Your task to perform on an android device: open app "WhatsApp Messenger" Image 0: 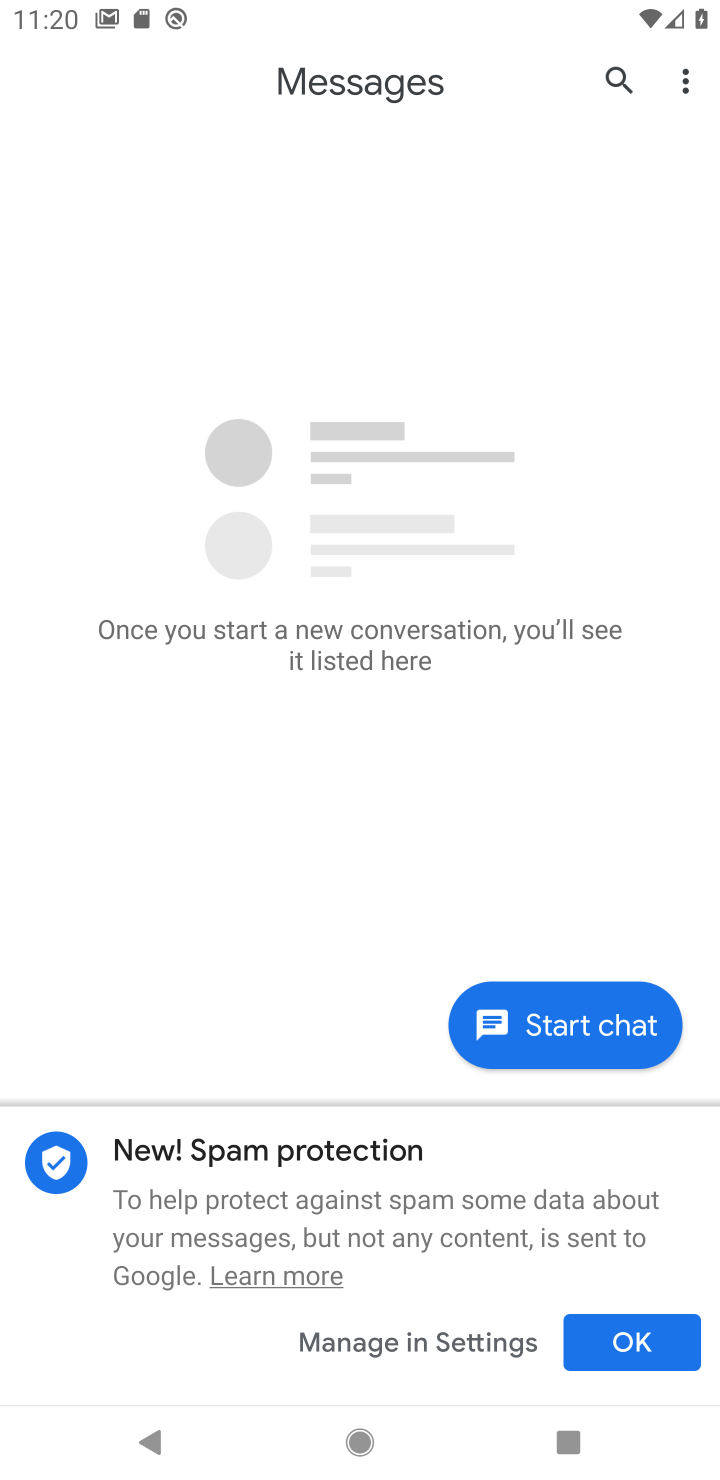
Step 0: press back button
Your task to perform on an android device: open app "WhatsApp Messenger" Image 1: 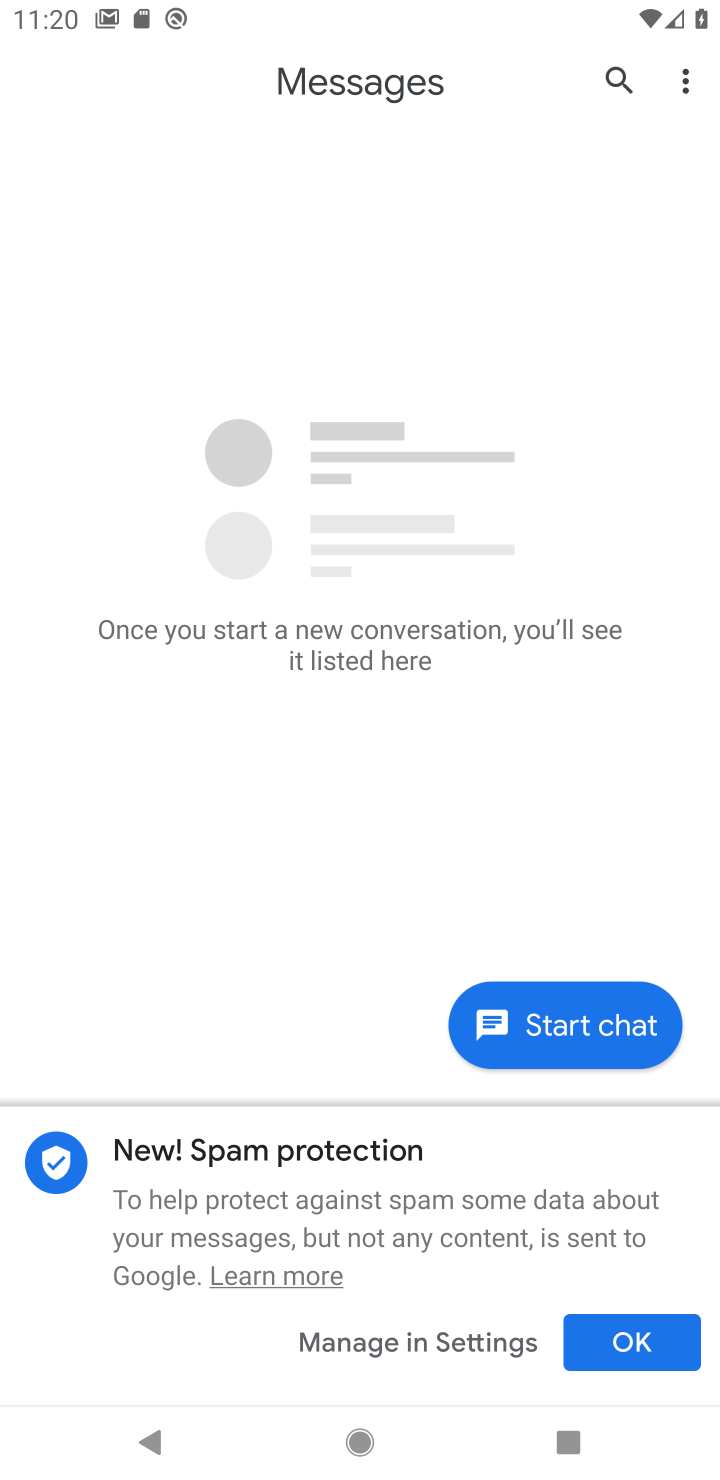
Step 1: press back button
Your task to perform on an android device: open app "WhatsApp Messenger" Image 2: 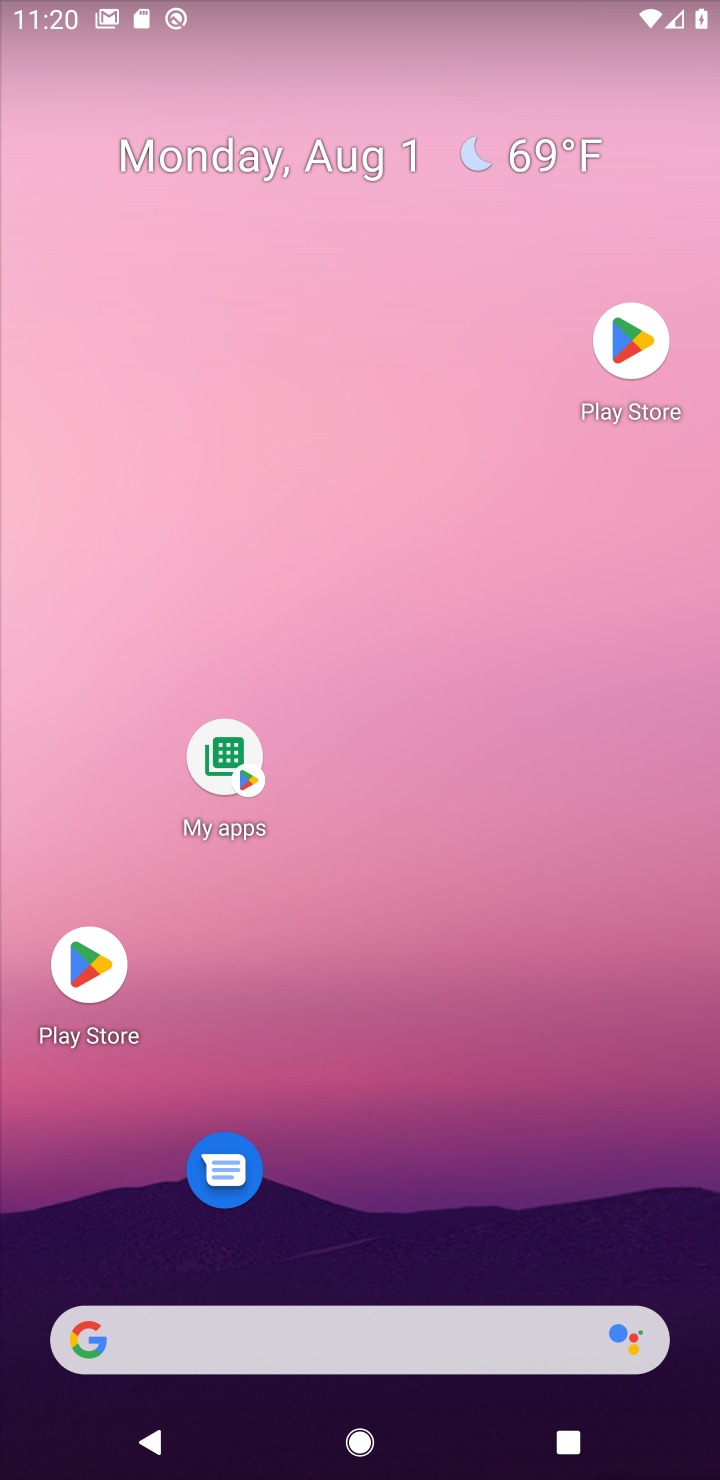
Step 2: click (646, 1325)
Your task to perform on an android device: open app "WhatsApp Messenger" Image 3: 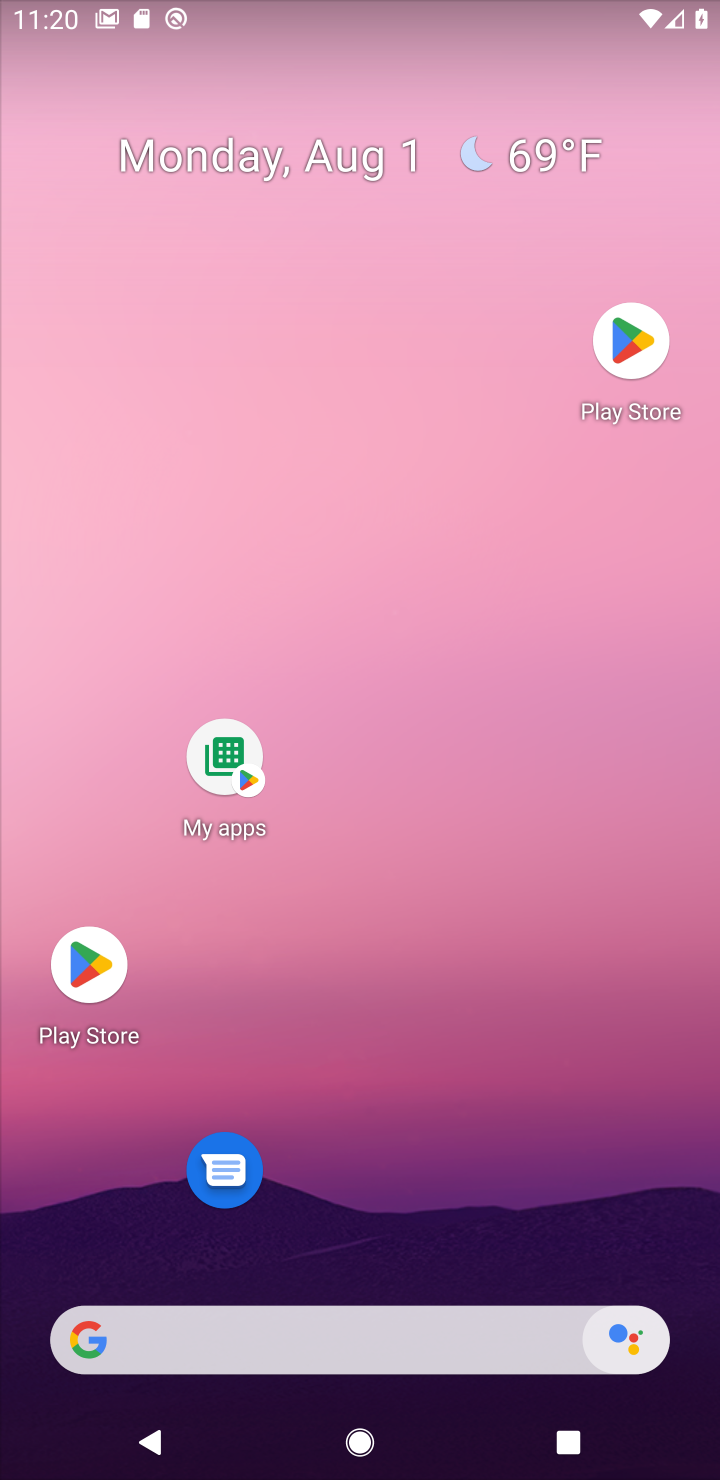
Step 3: click (644, 1325)
Your task to perform on an android device: open app "WhatsApp Messenger" Image 4: 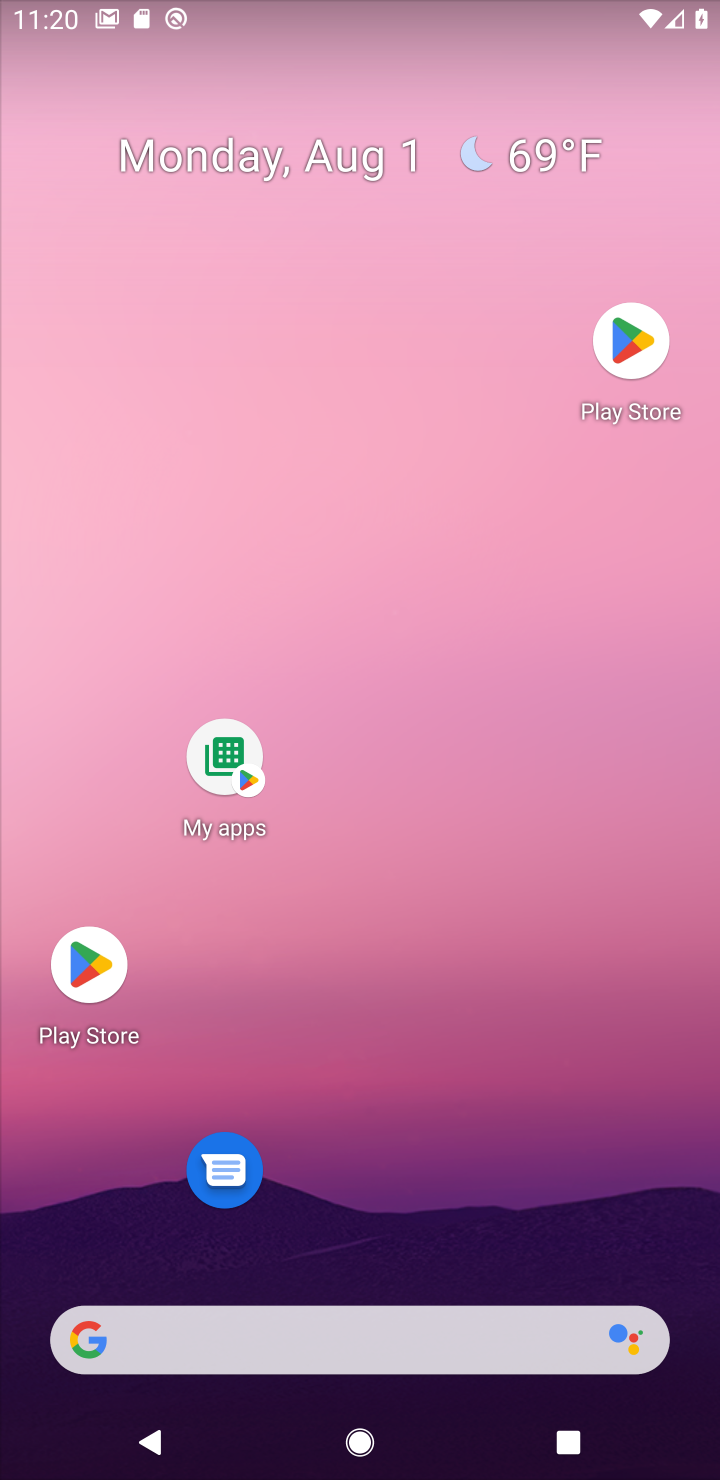
Step 4: drag from (455, 1216) to (362, 287)
Your task to perform on an android device: open app "WhatsApp Messenger" Image 5: 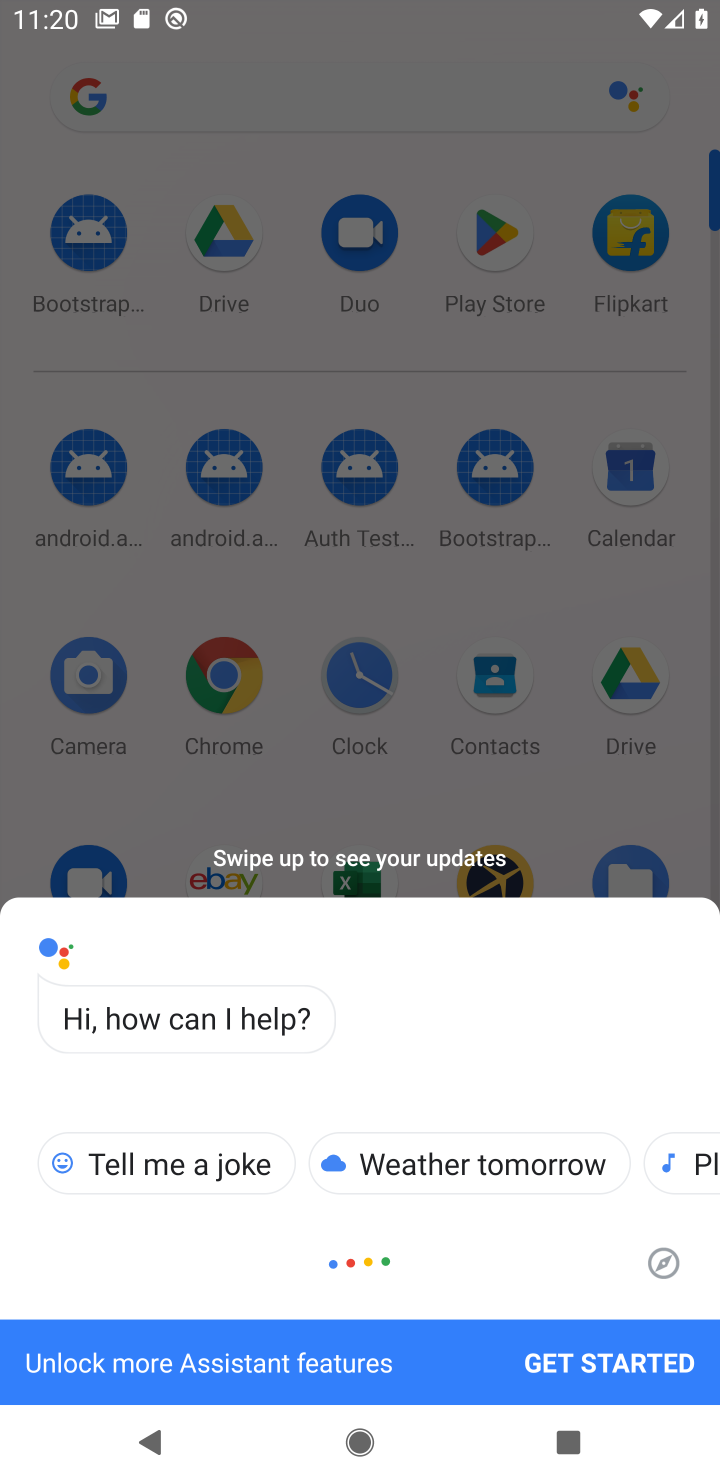
Step 5: drag from (88, 954) to (531, 690)
Your task to perform on an android device: open app "WhatsApp Messenger" Image 6: 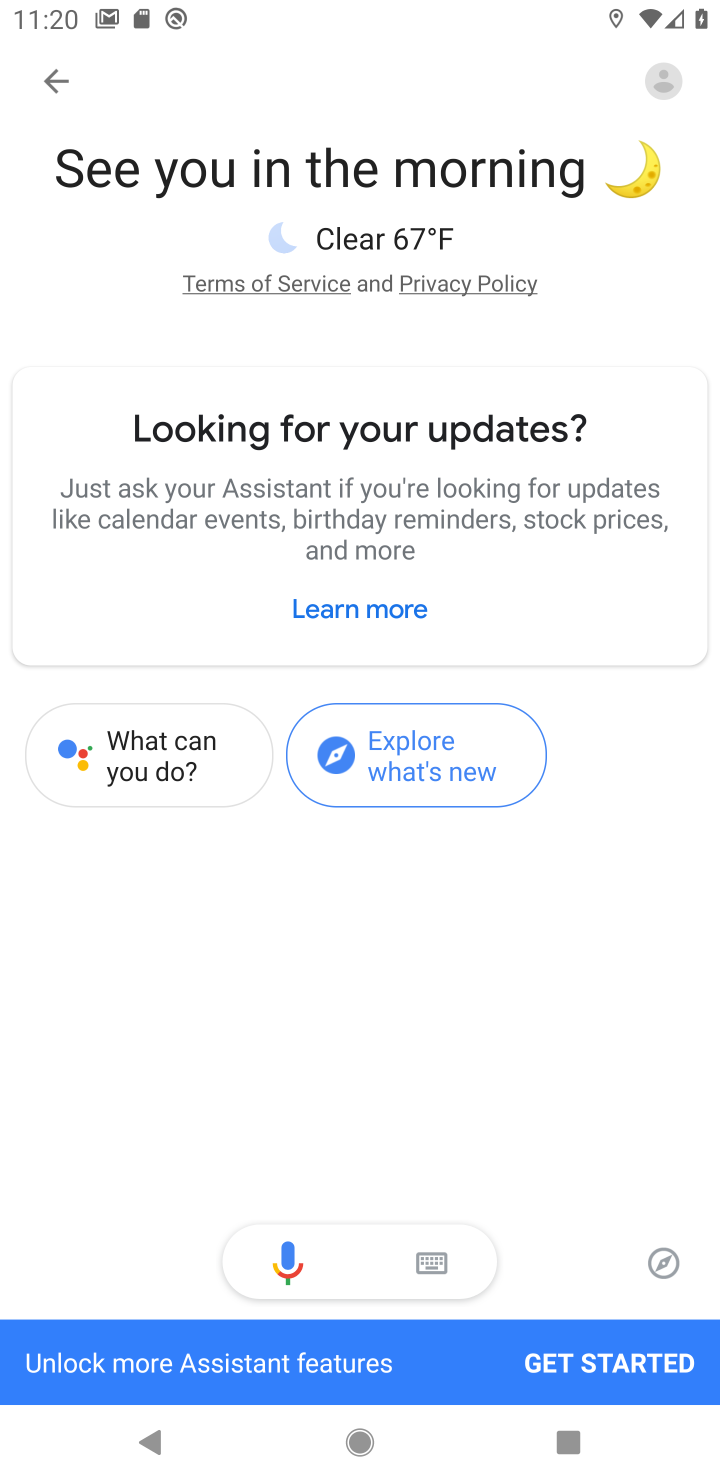
Step 6: click (527, 796)
Your task to perform on an android device: open app "WhatsApp Messenger" Image 7: 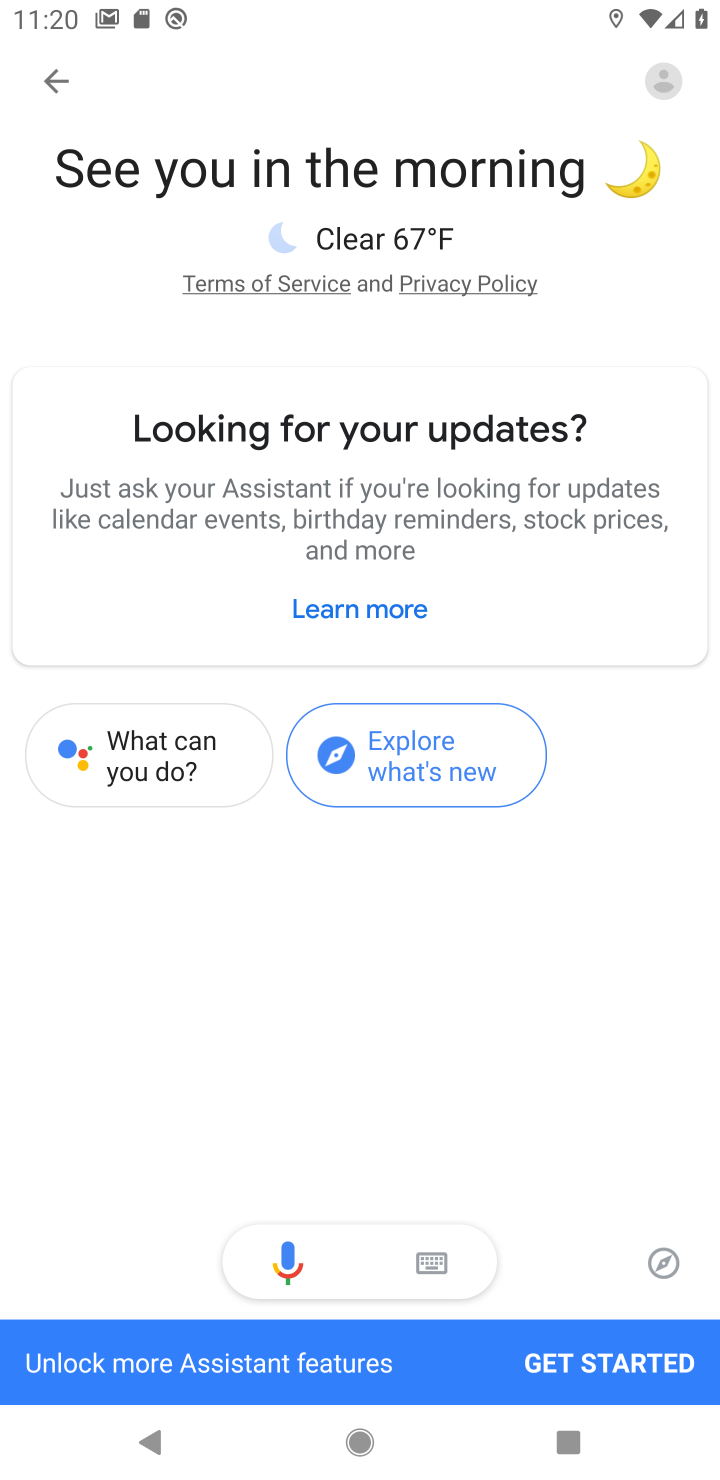
Step 7: press back button
Your task to perform on an android device: open app "WhatsApp Messenger" Image 8: 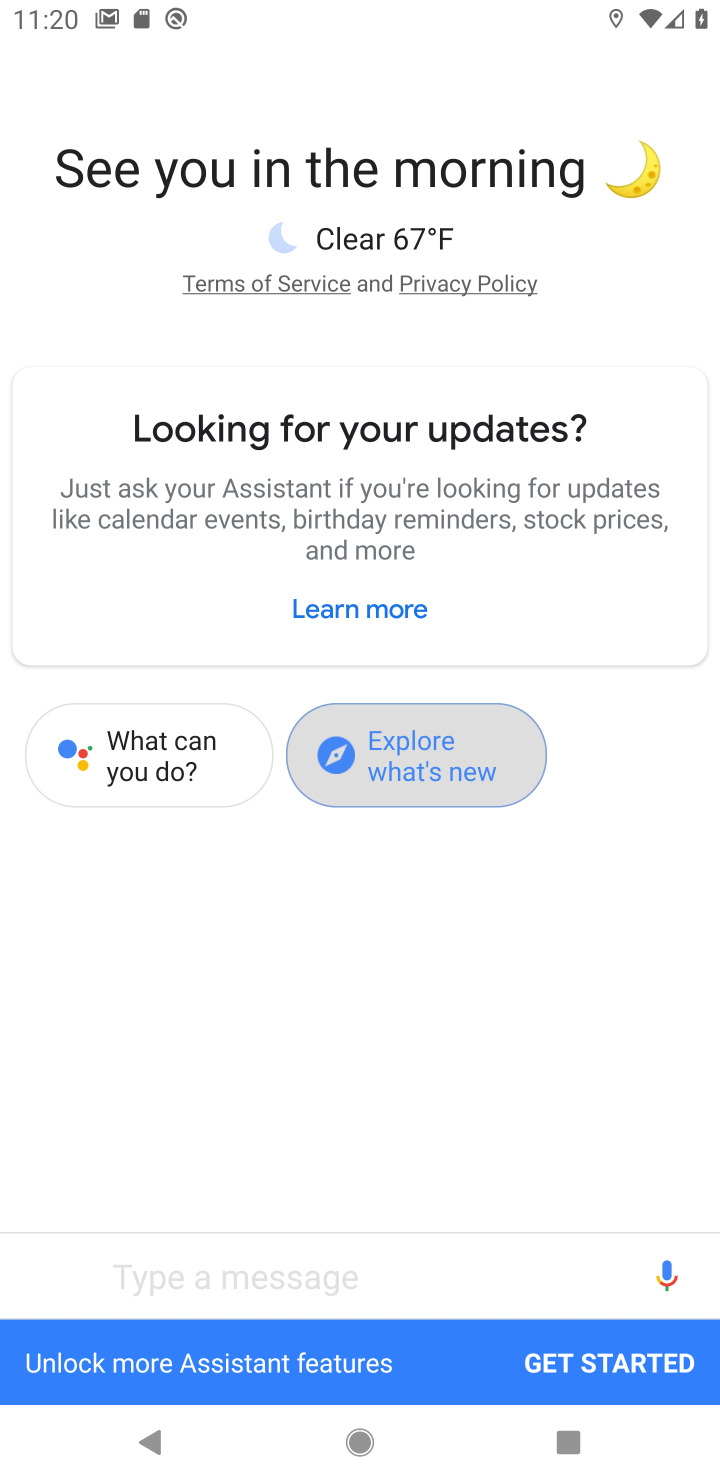
Step 8: press home button
Your task to perform on an android device: open app "WhatsApp Messenger" Image 9: 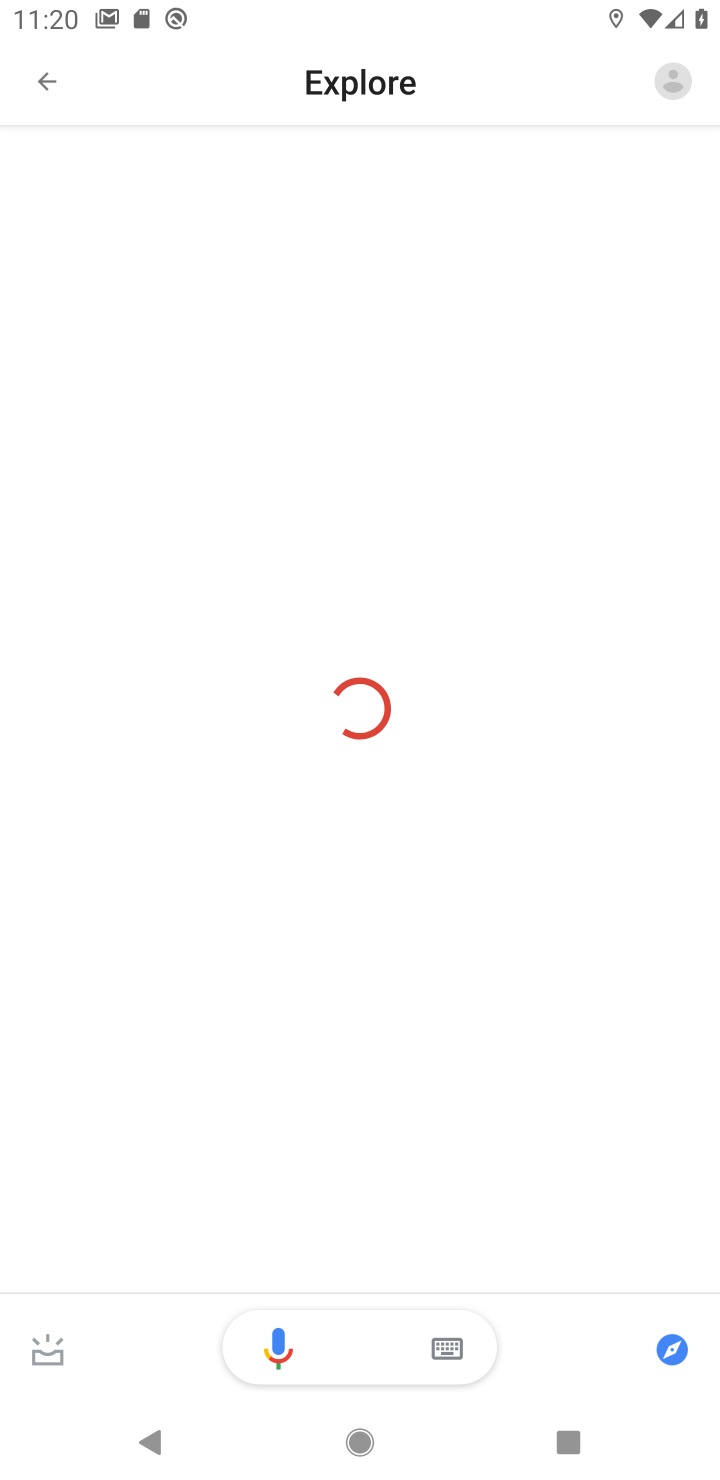
Step 9: click (67, 68)
Your task to perform on an android device: open app "WhatsApp Messenger" Image 10: 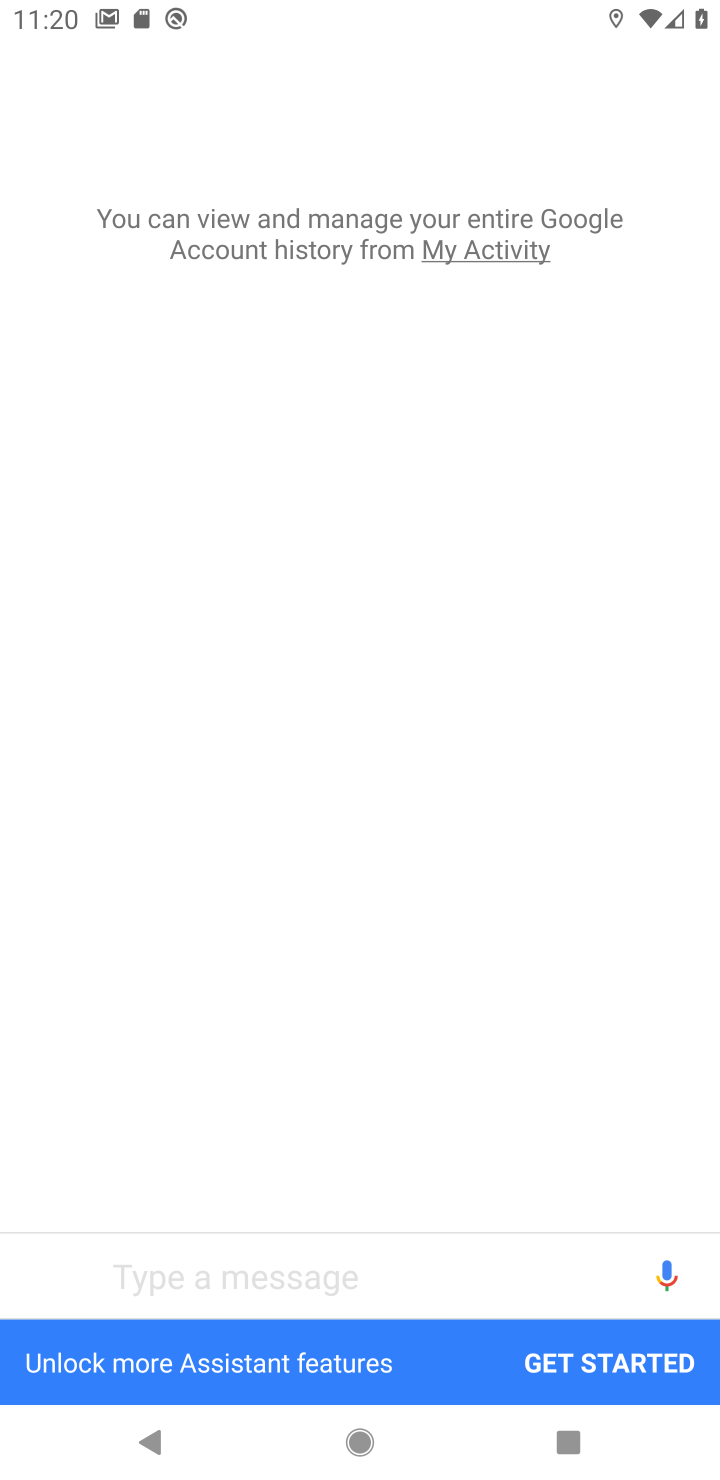
Step 10: press back button
Your task to perform on an android device: open app "WhatsApp Messenger" Image 11: 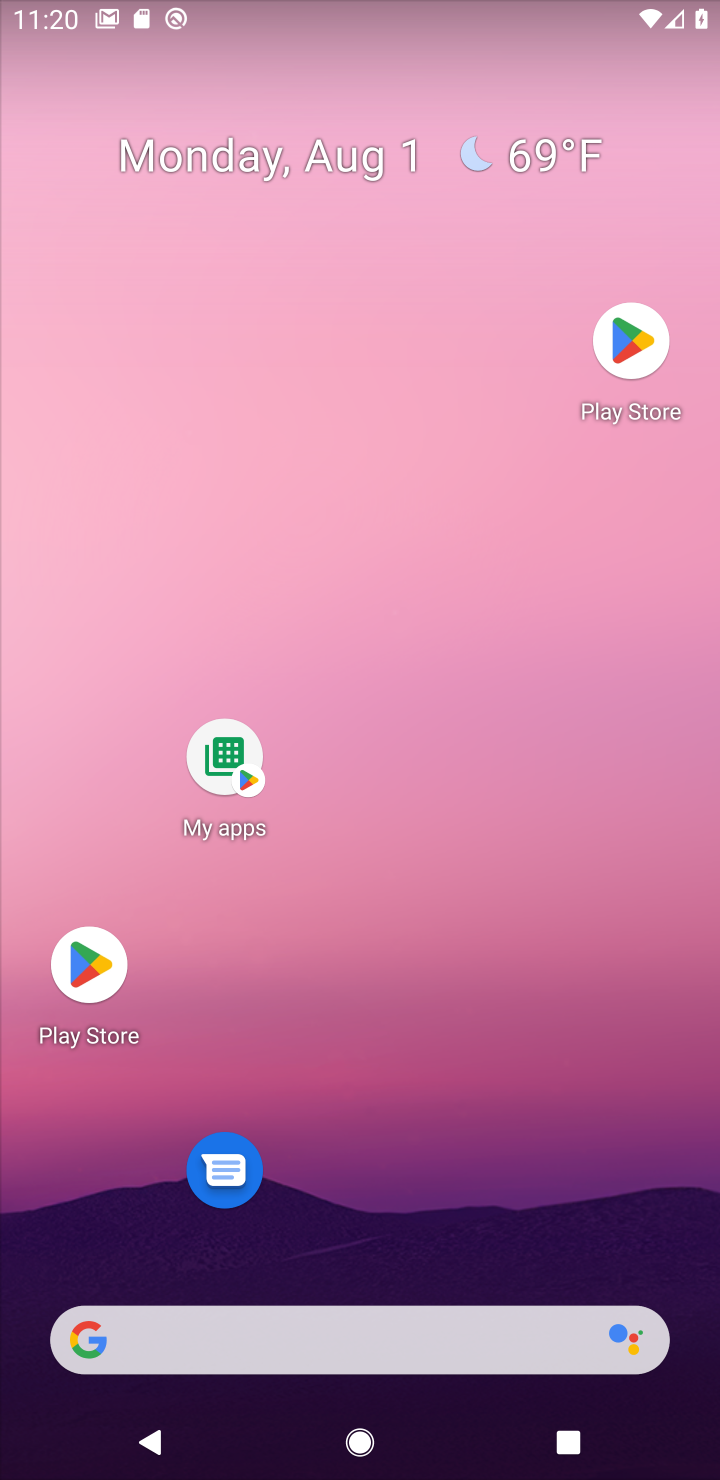
Step 11: press back button
Your task to perform on an android device: open app "WhatsApp Messenger" Image 12: 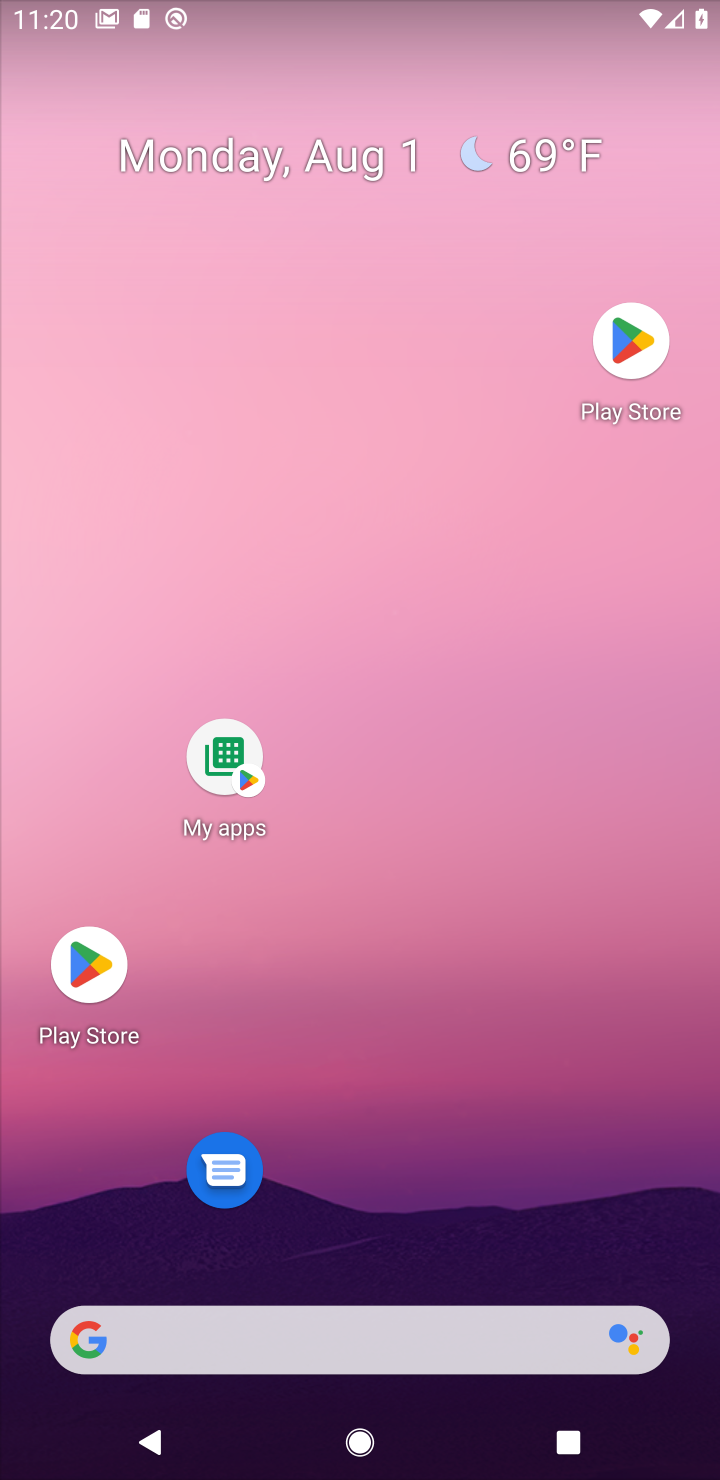
Step 12: press home button
Your task to perform on an android device: open app "WhatsApp Messenger" Image 13: 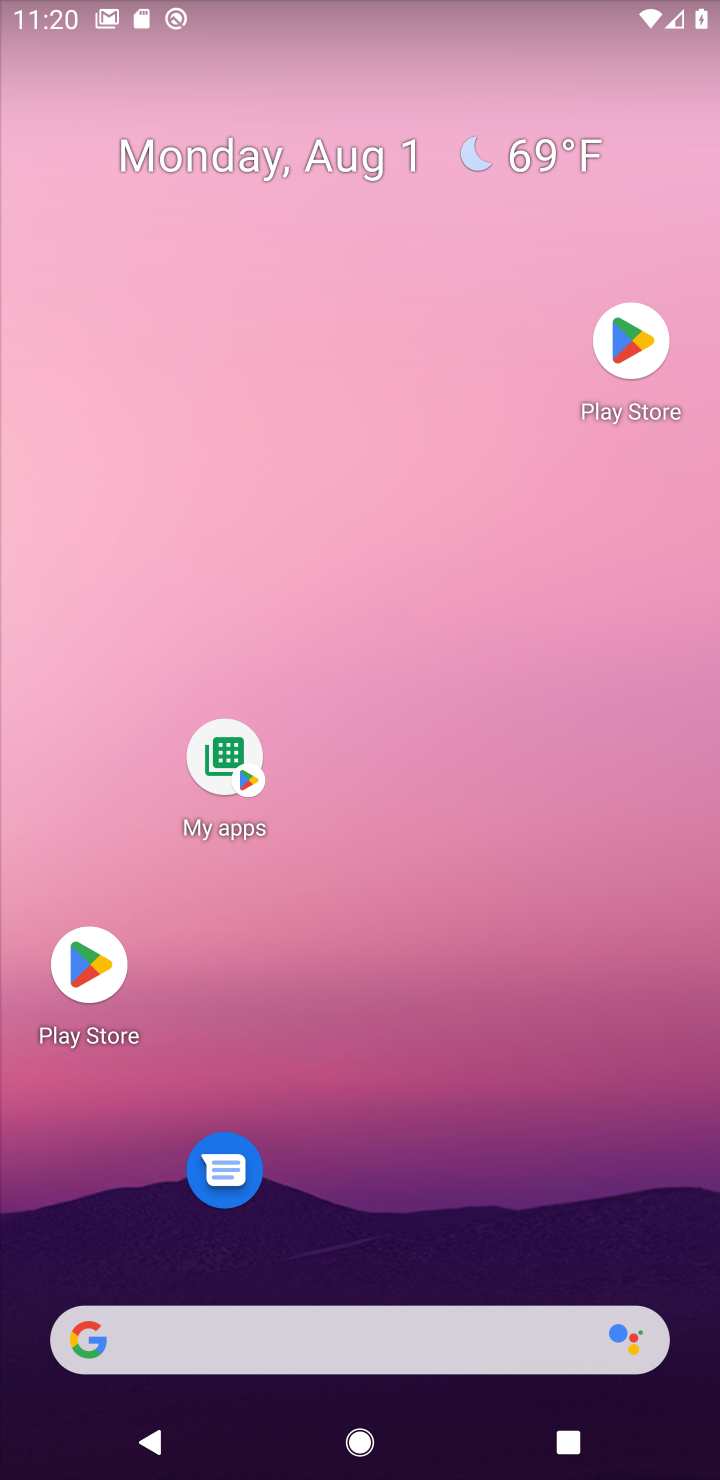
Step 13: click (631, 320)
Your task to perform on an android device: open app "WhatsApp Messenger" Image 14: 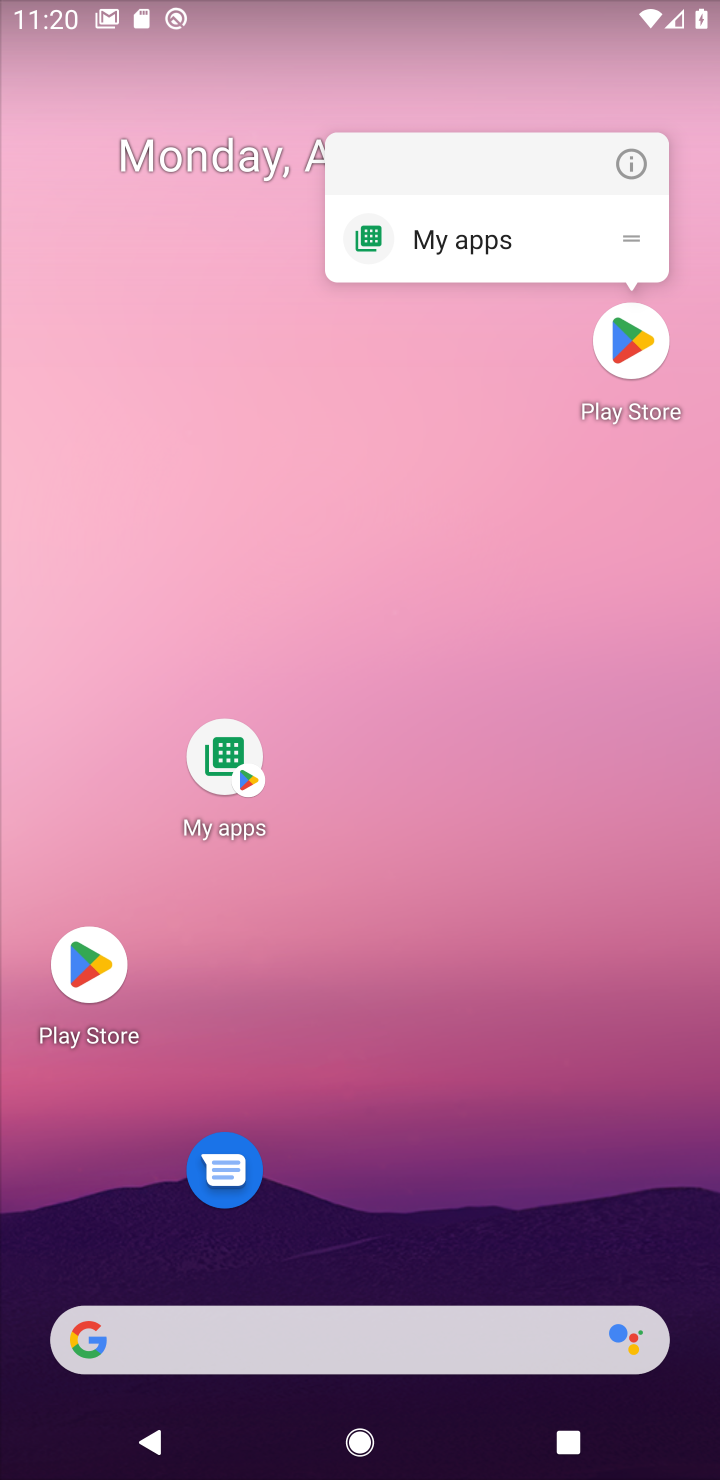
Step 14: click (655, 327)
Your task to perform on an android device: open app "WhatsApp Messenger" Image 15: 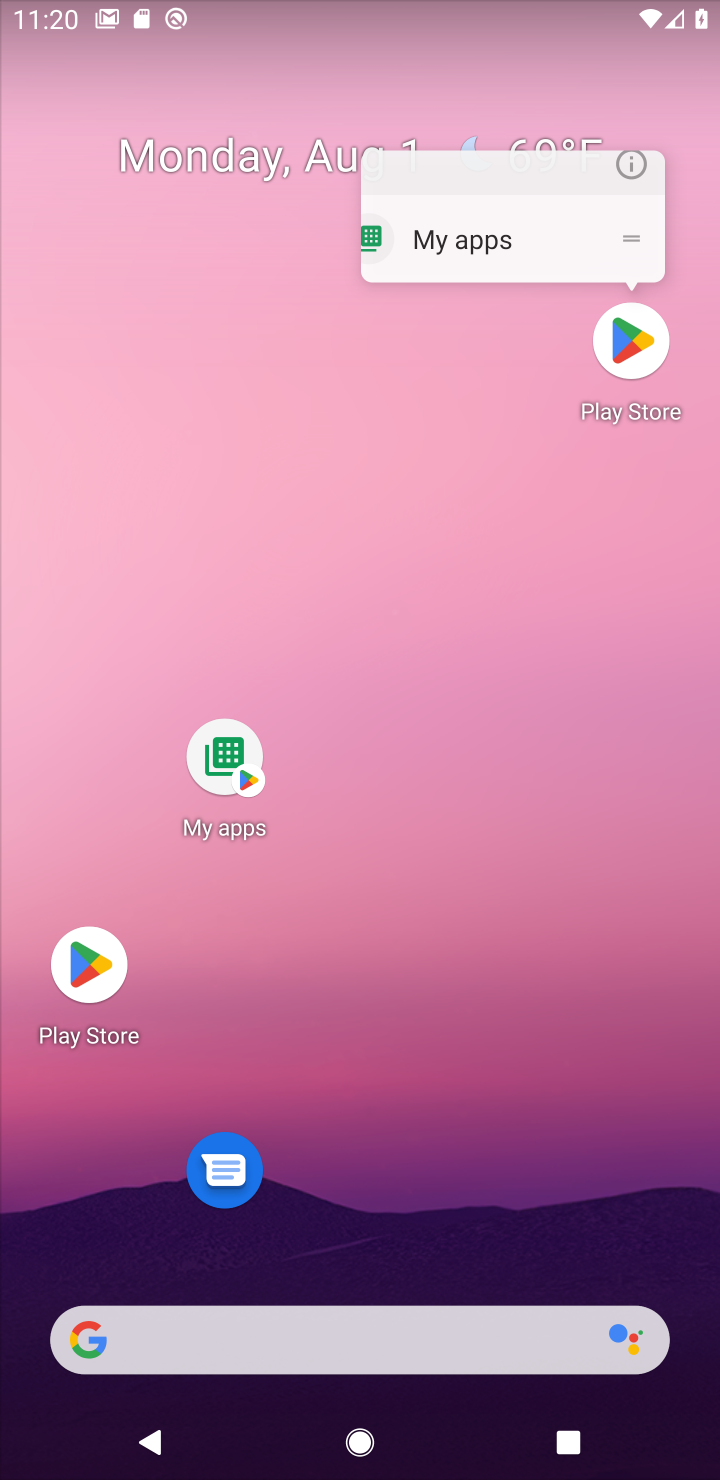
Step 15: click (657, 331)
Your task to perform on an android device: open app "WhatsApp Messenger" Image 16: 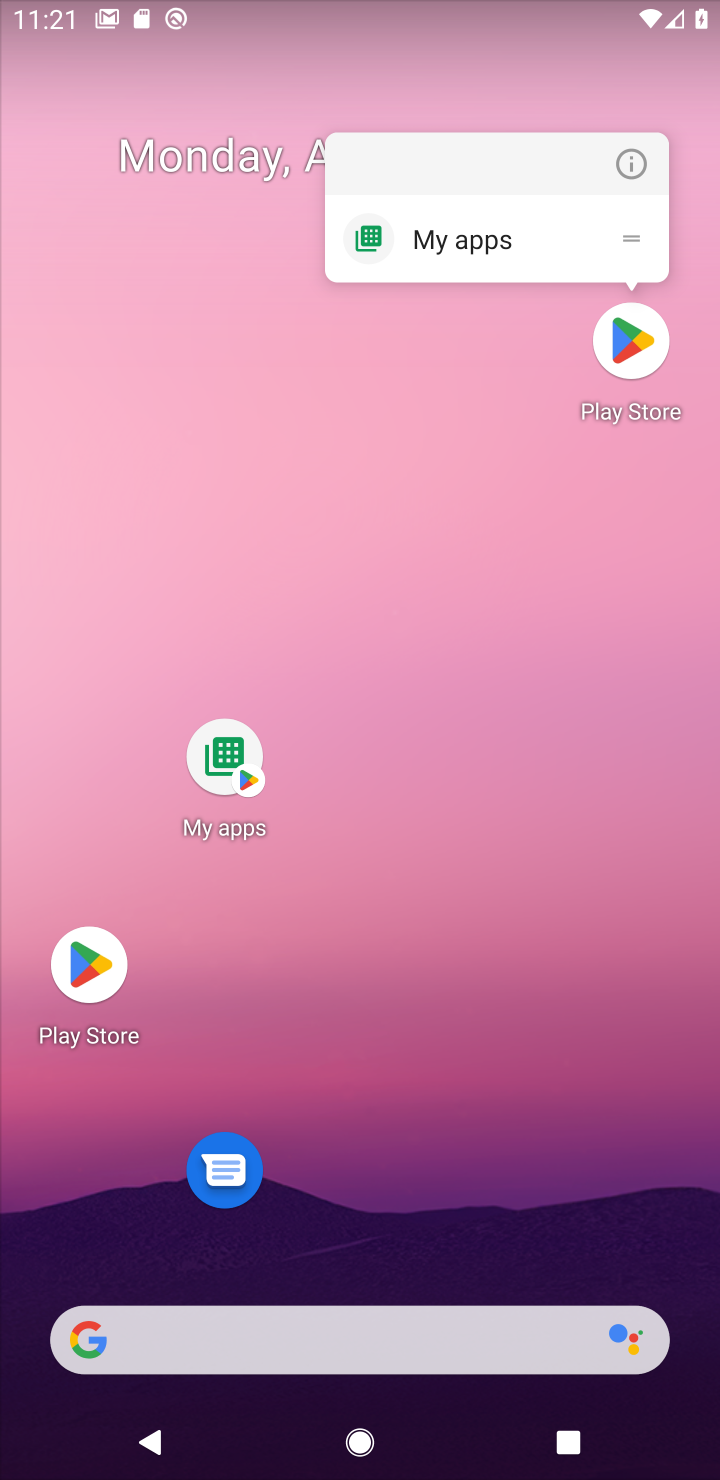
Step 16: click (623, 311)
Your task to perform on an android device: open app "WhatsApp Messenger" Image 17: 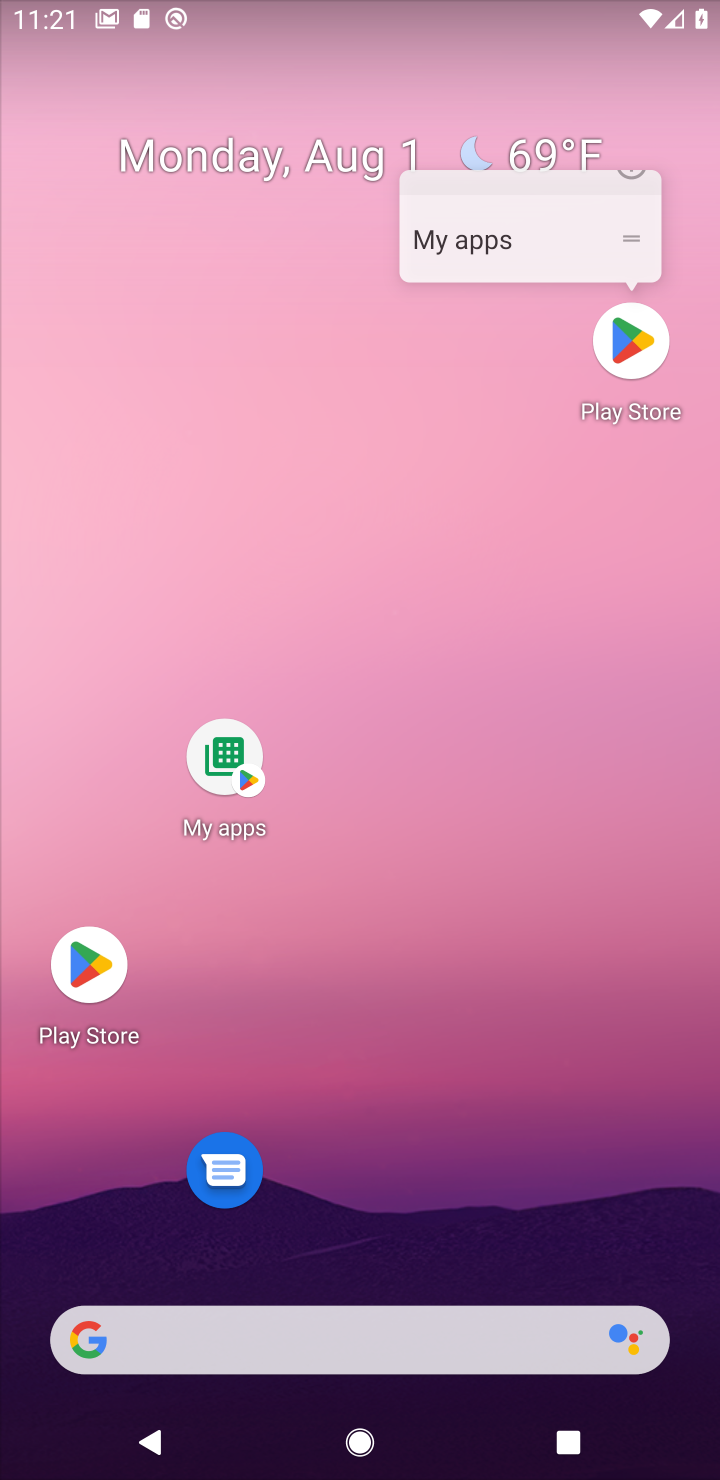
Step 17: click (627, 337)
Your task to perform on an android device: open app "WhatsApp Messenger" Image 18: 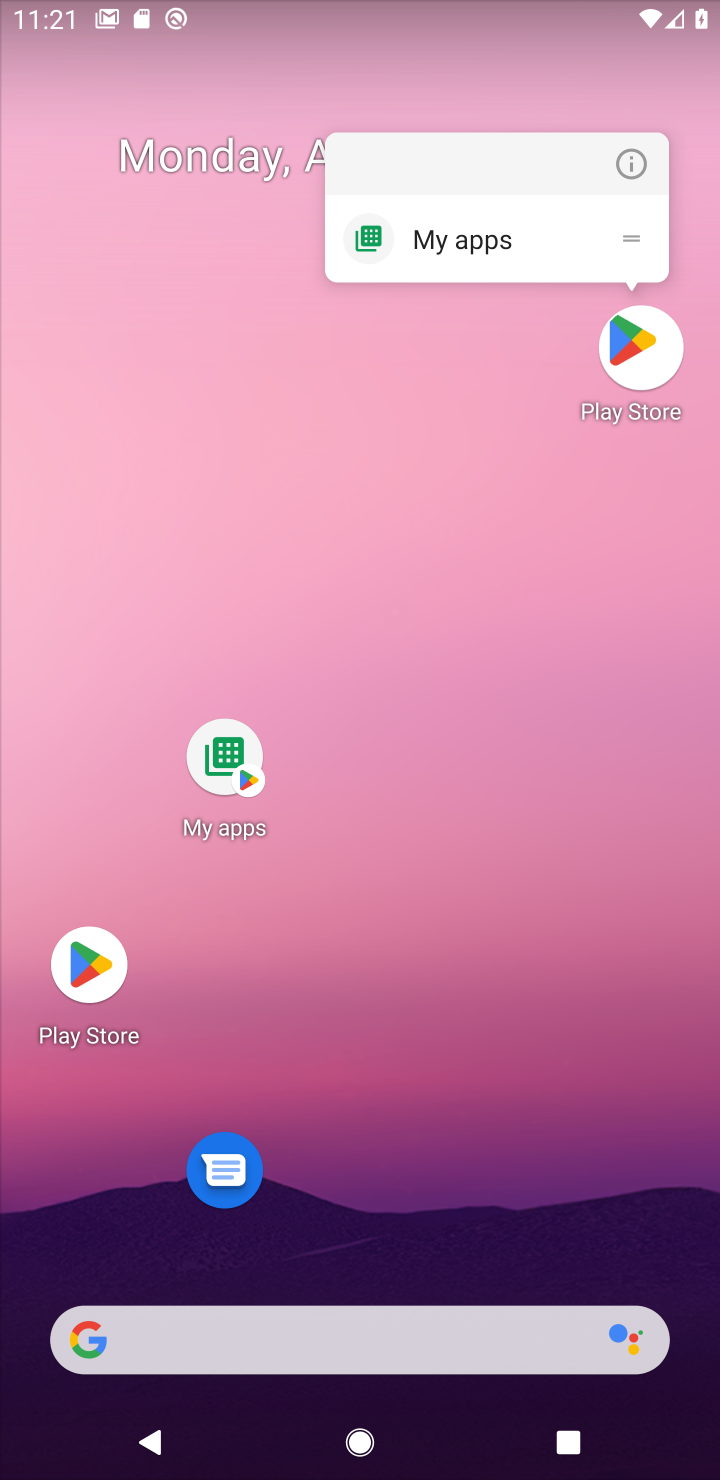
Step 18: click (637, 344)
Your task to perform on an android device: open app "WhatsApp Messenger" Image 19: 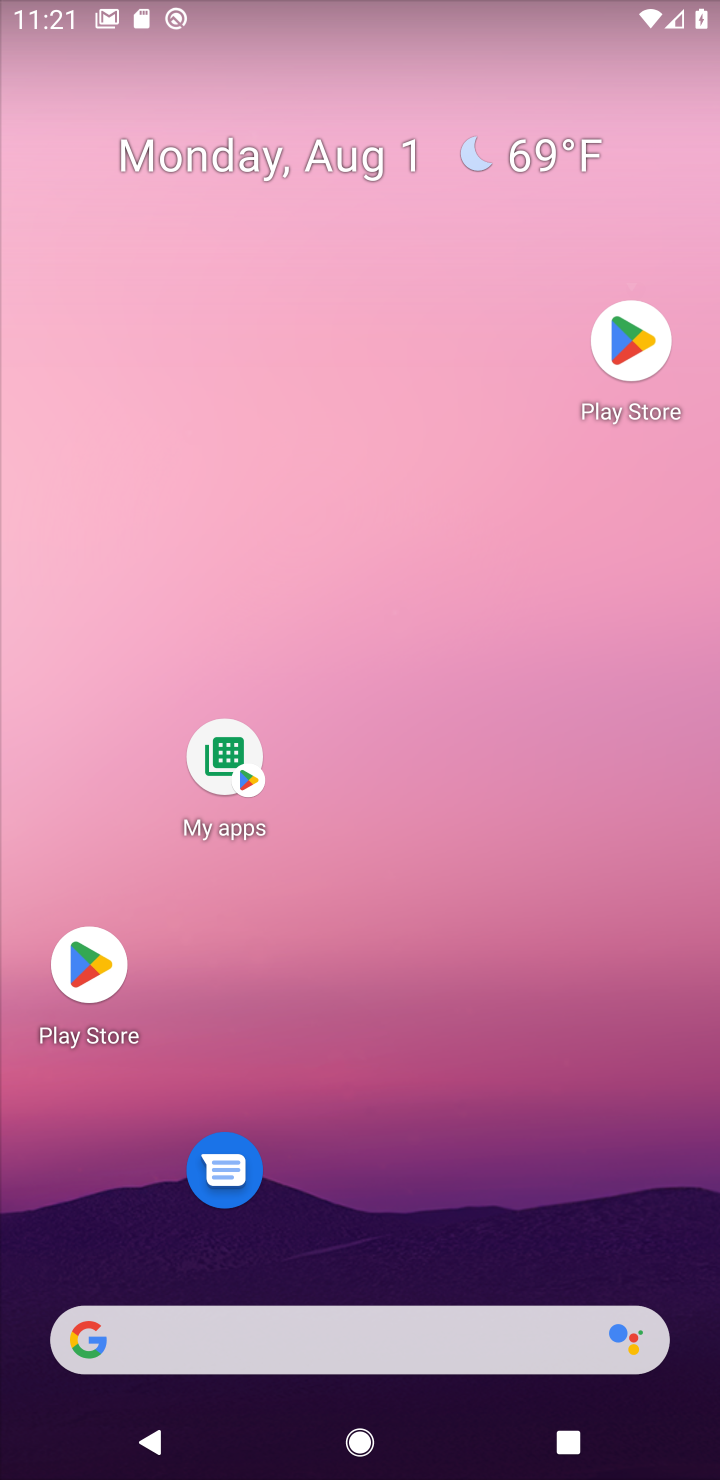
Step 19: click (643, 374)
Your task to perform on an android device: open app "WhatsApp Messenger" Image 20: 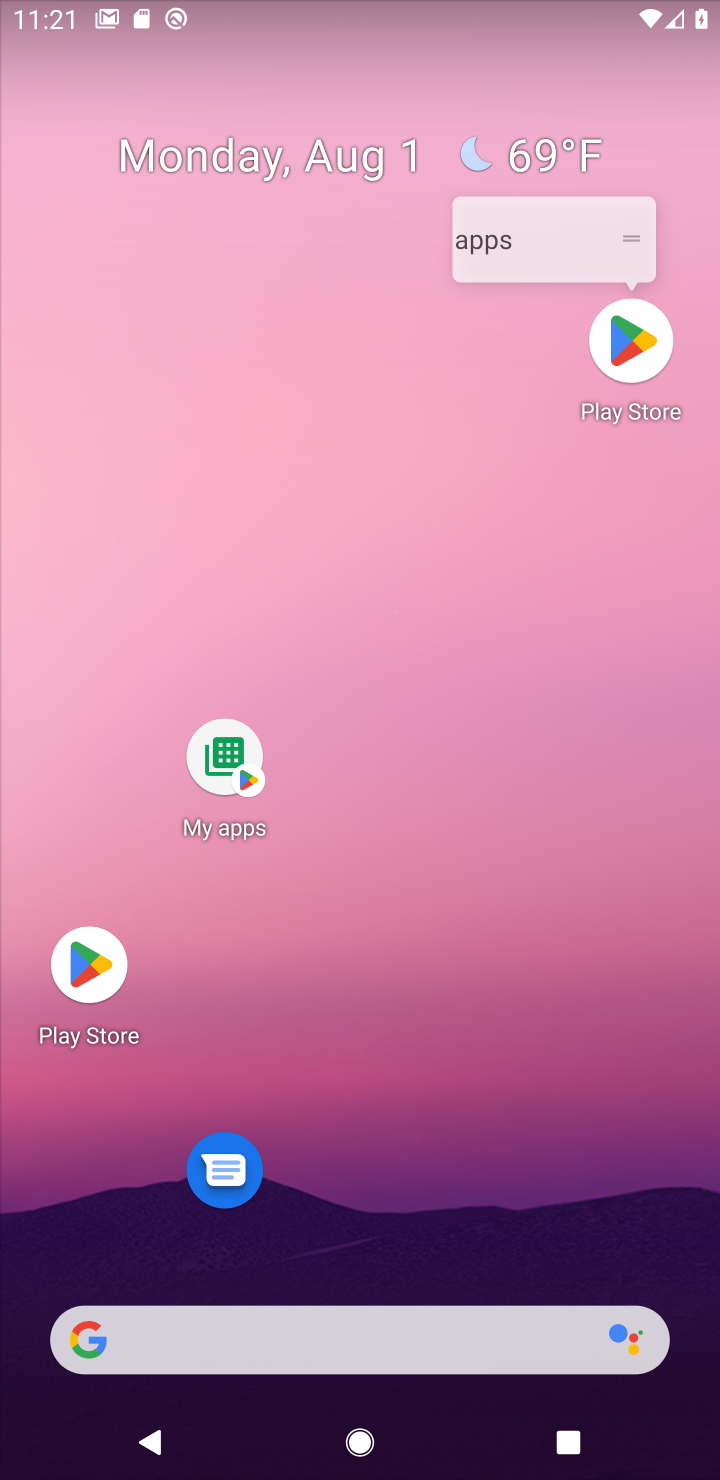
Step 20: click (450, 225)
Your task to perform on an android device: open app "WhatsApp Messenger" Image 21: 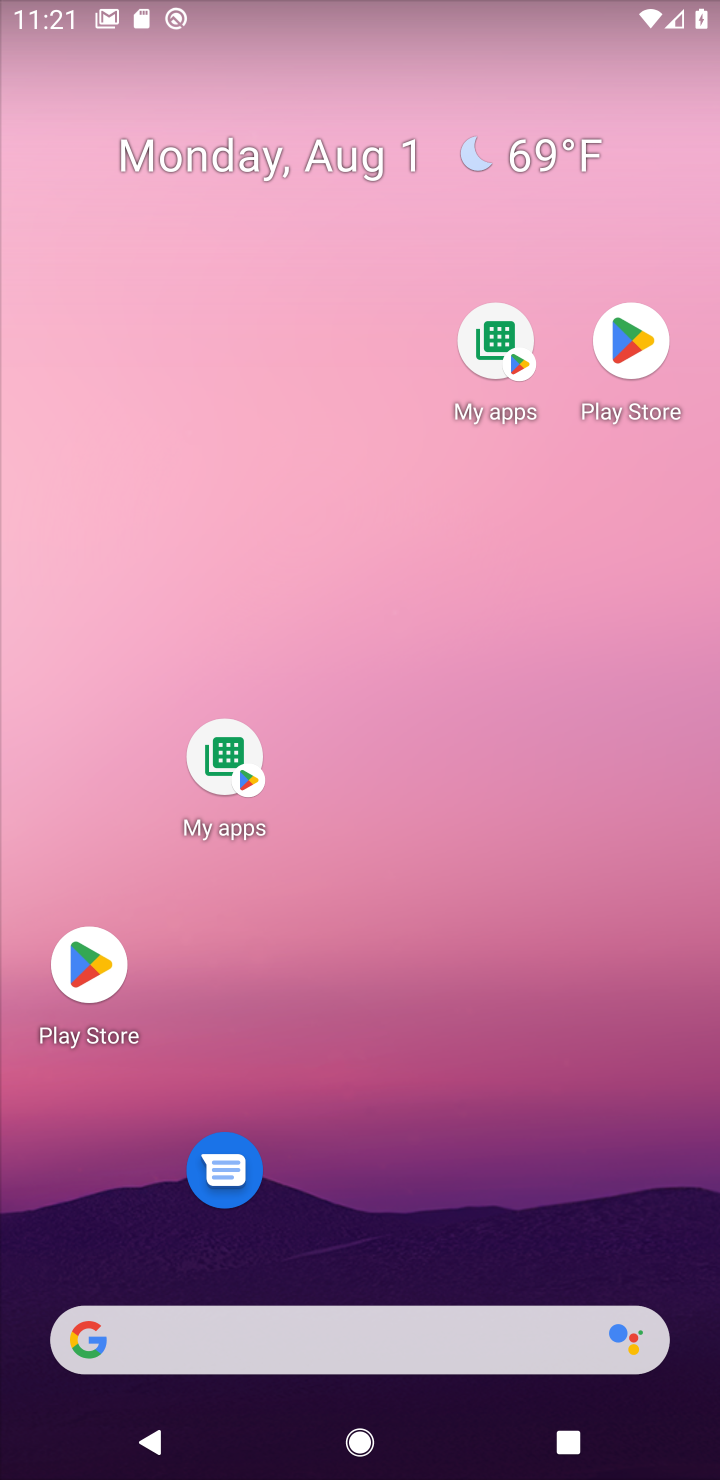
Step 21: click (637, 330)
Your task to perform on an android device: open app "WhatsApp Messenger" Image 22: 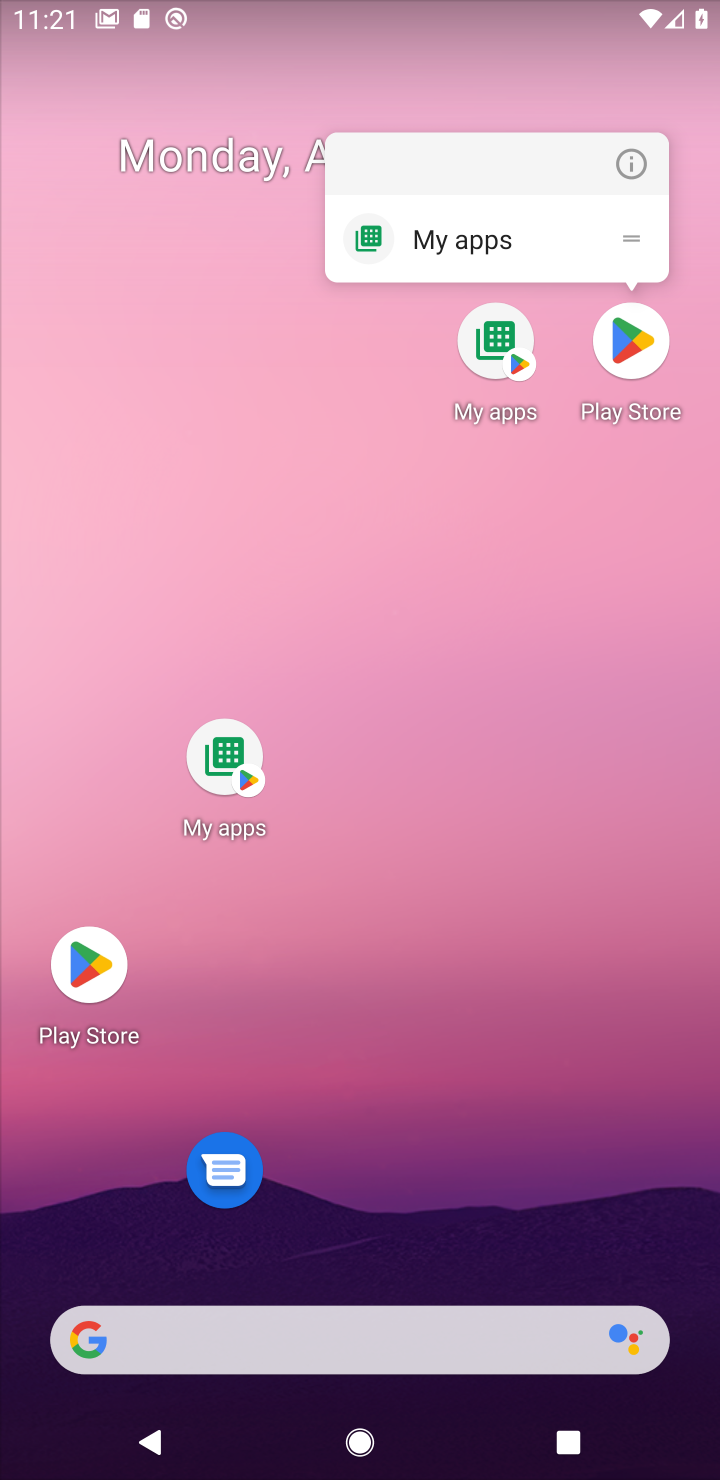
Step 22: click (466, 241)
Your task to perform on an android device: open app "WhatsApp Messenger" Image 23: 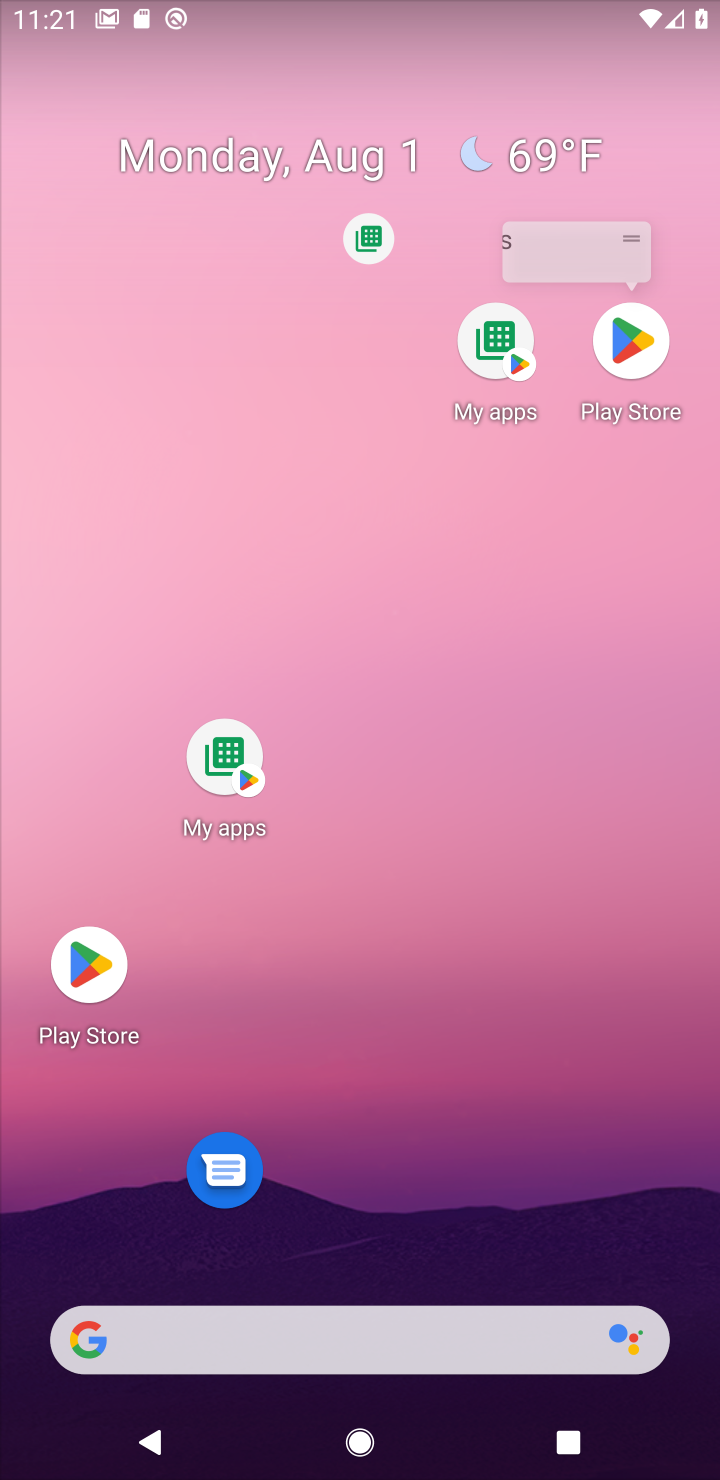
Step 23: click (468, 243)
Your task to perform on an android device: open app "WhatsApp Messenger" Image 24: 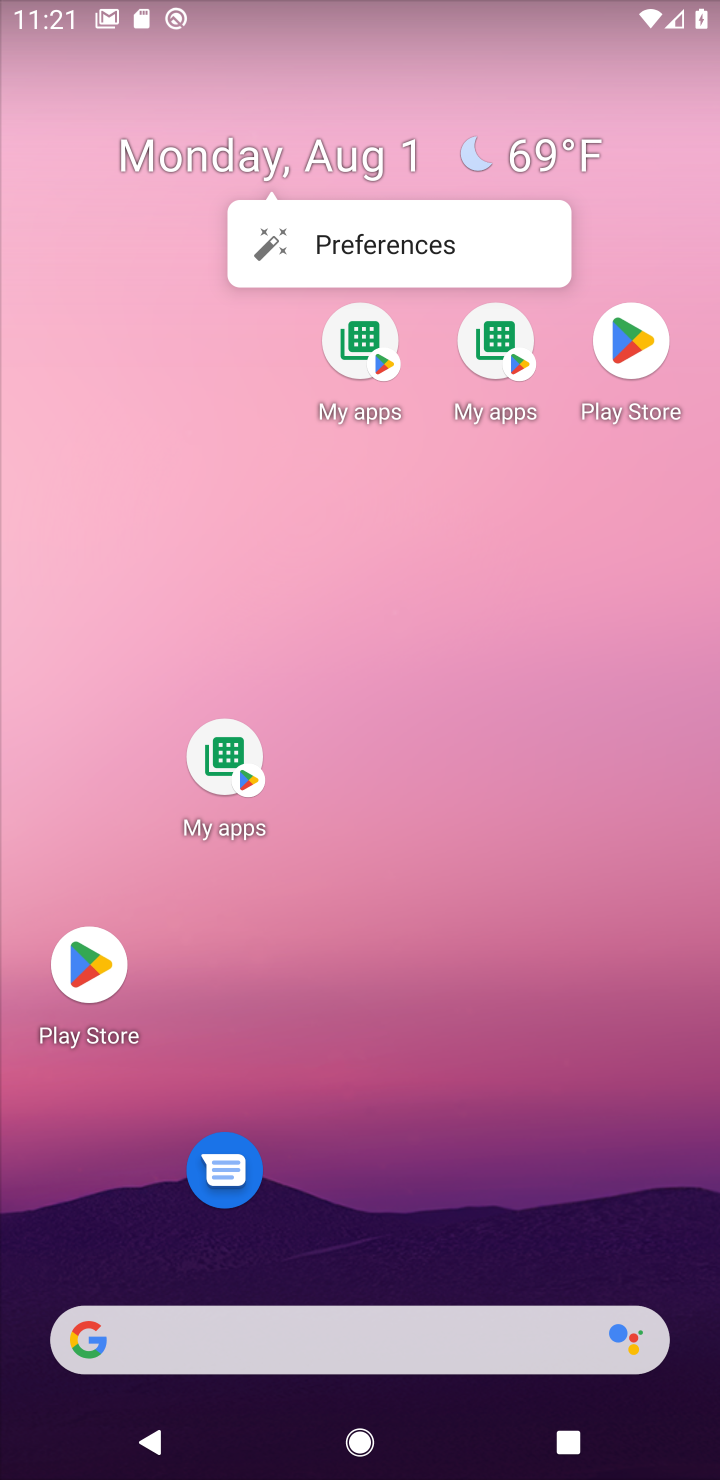
Step 24: drag from (656, 960) to (524, 148)
Your task to perform on an android device: open app "WhatsApp Messenger" Image 25: 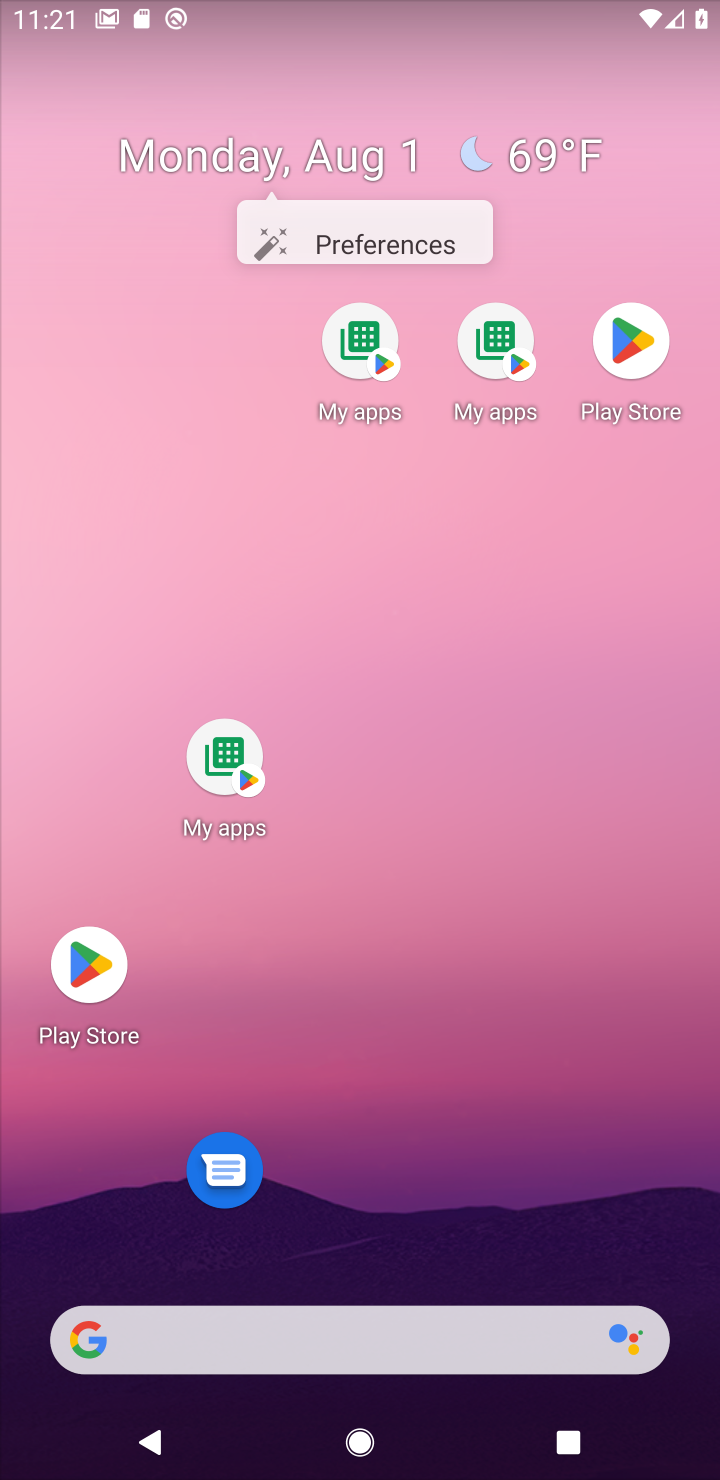
Step 25: drag from (471, 210) to (354, 409)
Your task to perform on an android device: open app "WhatsApp Messenger" Image 26: 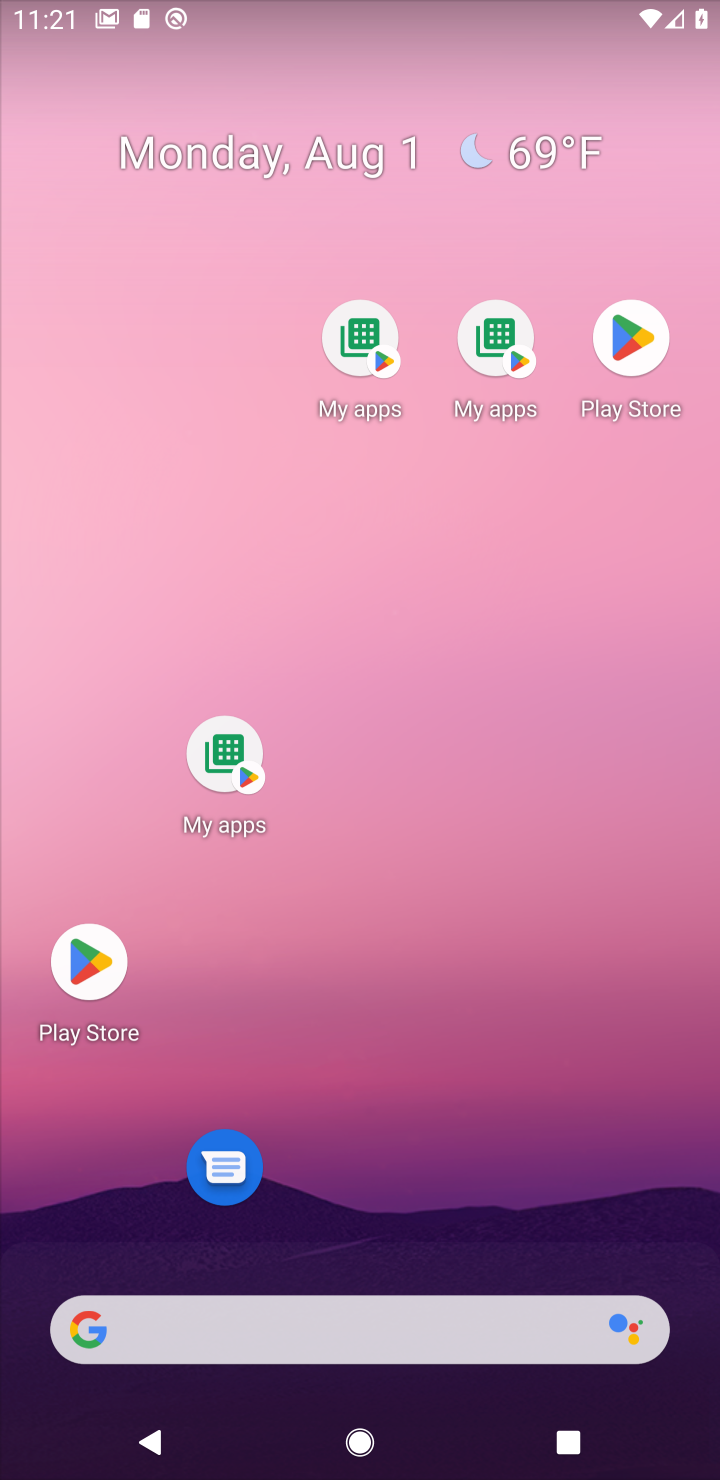
Step 26: drag from (488, 1193) to (385, 196)
Your task to perform on an android device: open app "WhatsApp Messenger" Image 27: 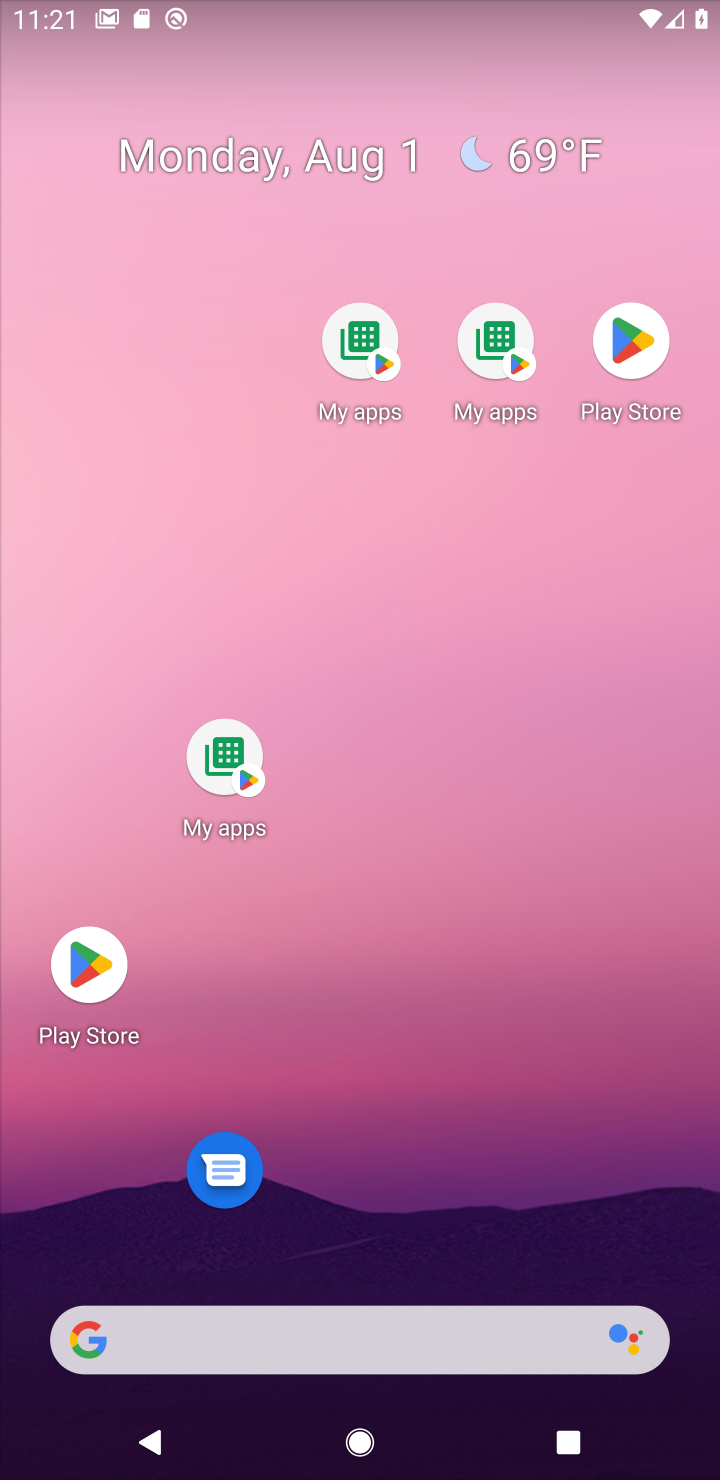
Step 27: drag from (385, 671) to (293, 241)
Your task to perform on an android device: open app "WhatsApp Messenger" Image 28: 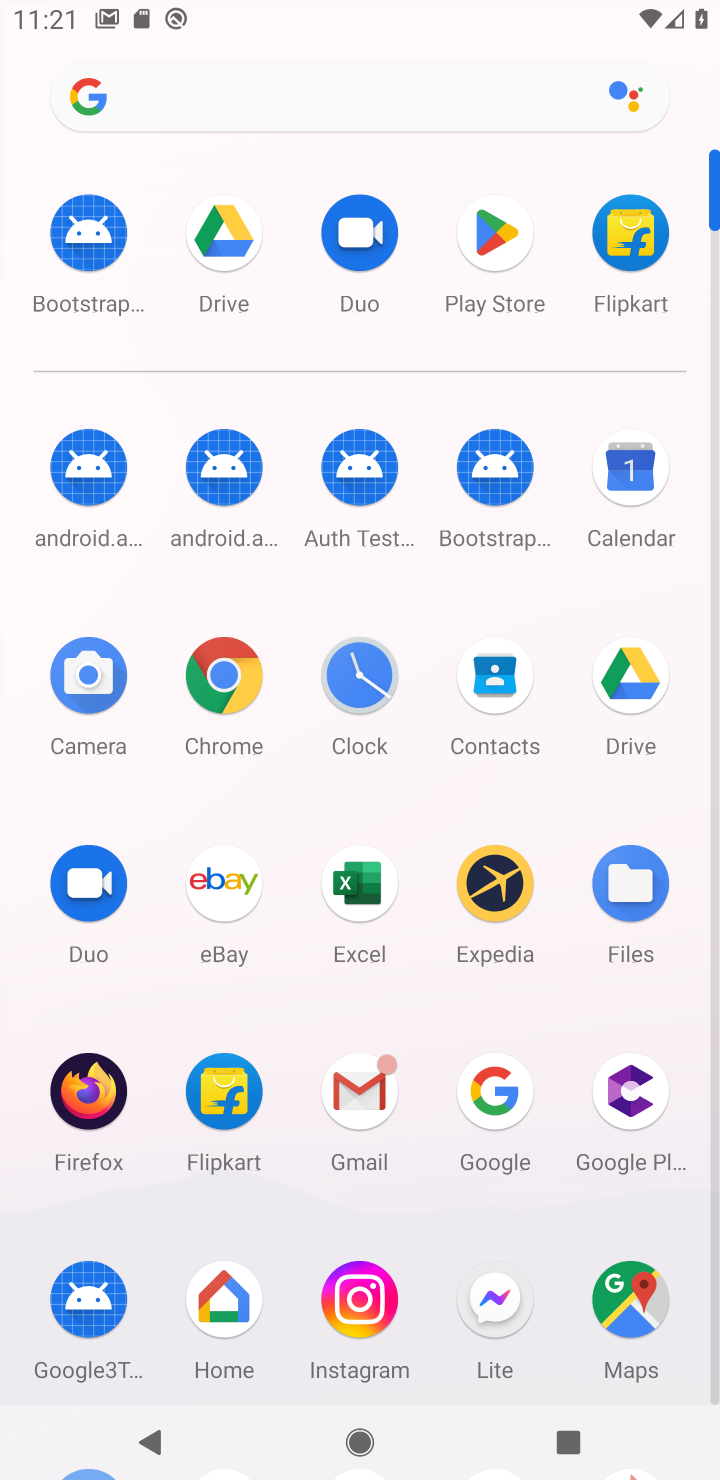
Step 28: click (497, 244)
Your task to perform on an android device: open app "WhatsApp Messenger" Image 29: 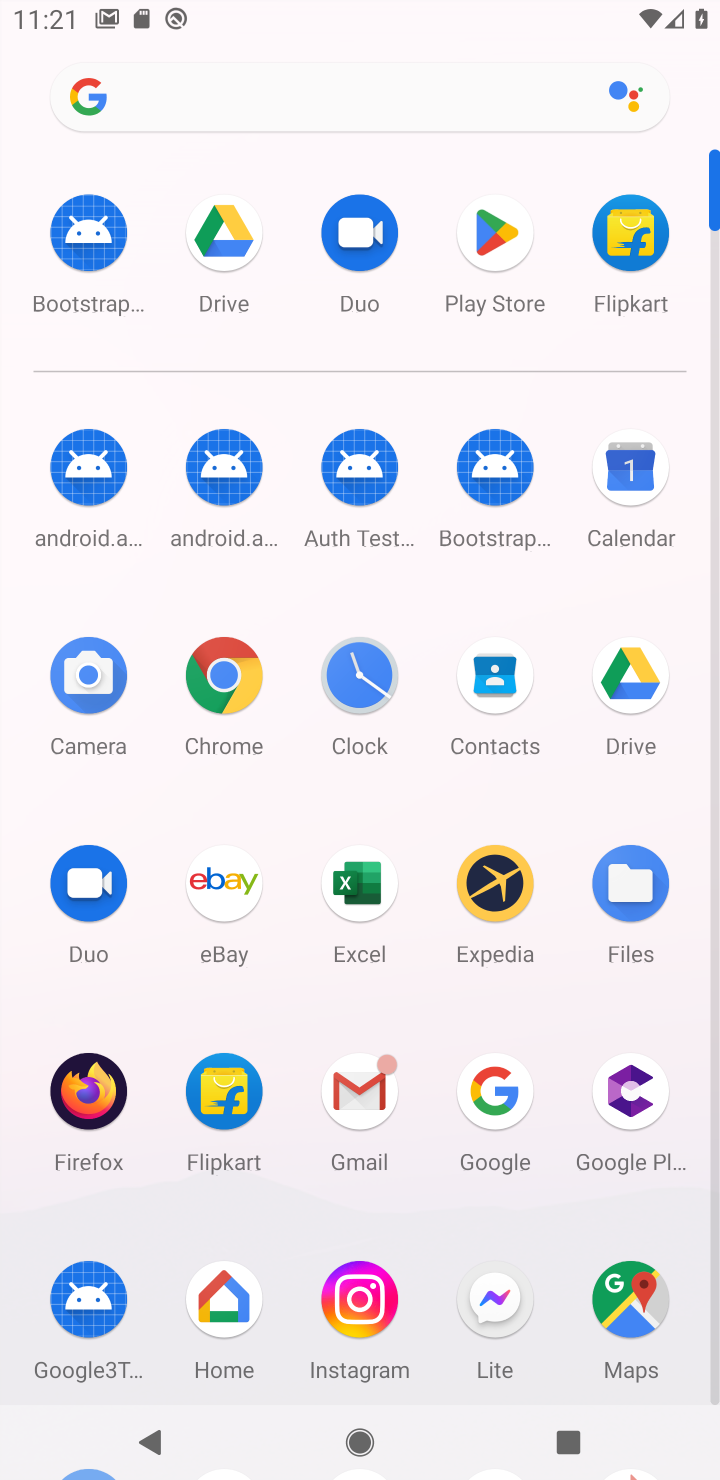
Step 29: click (505, 243)
Your task to perform on an android device: open app "WhatsApp Messenger" Image 30: 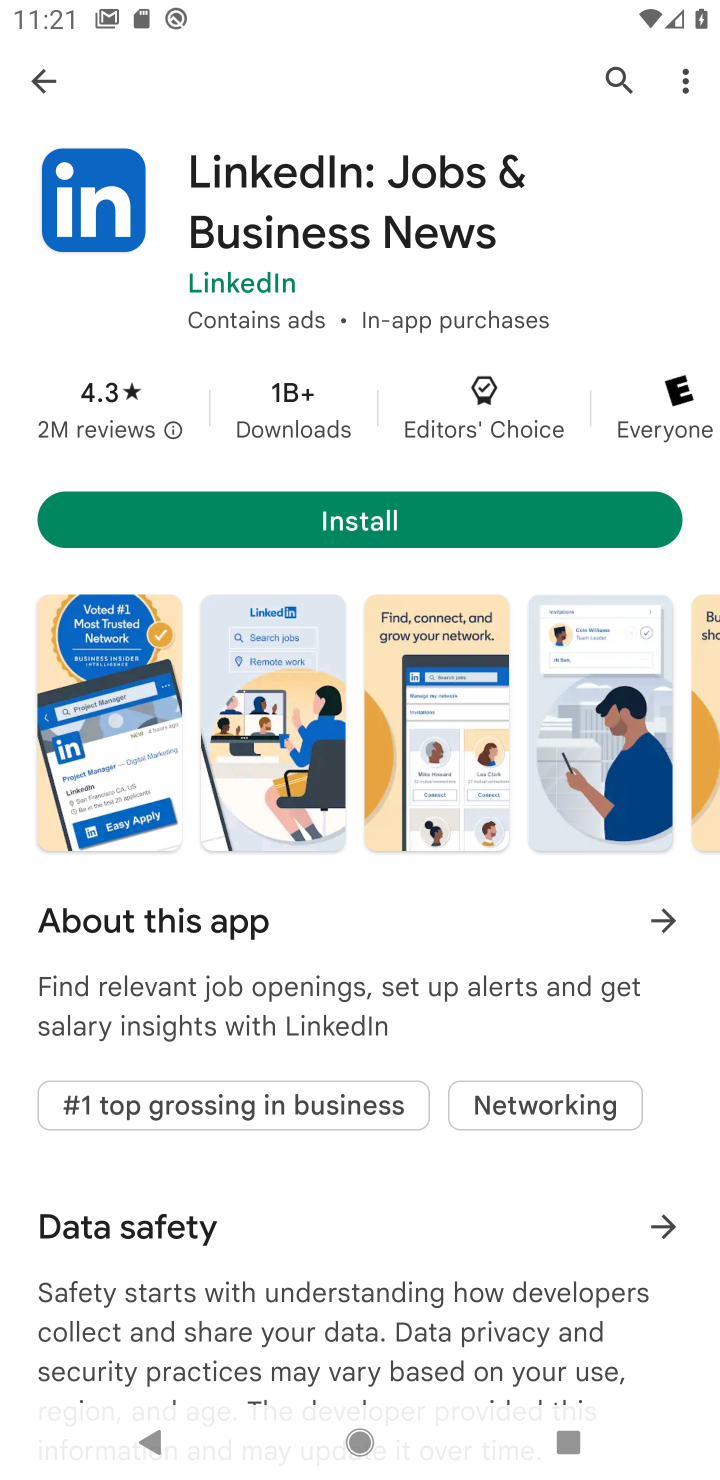
Step 30: click (47, 73)
Your task to perform on an android device: open app "WhatsApp Messenger" Image 31: 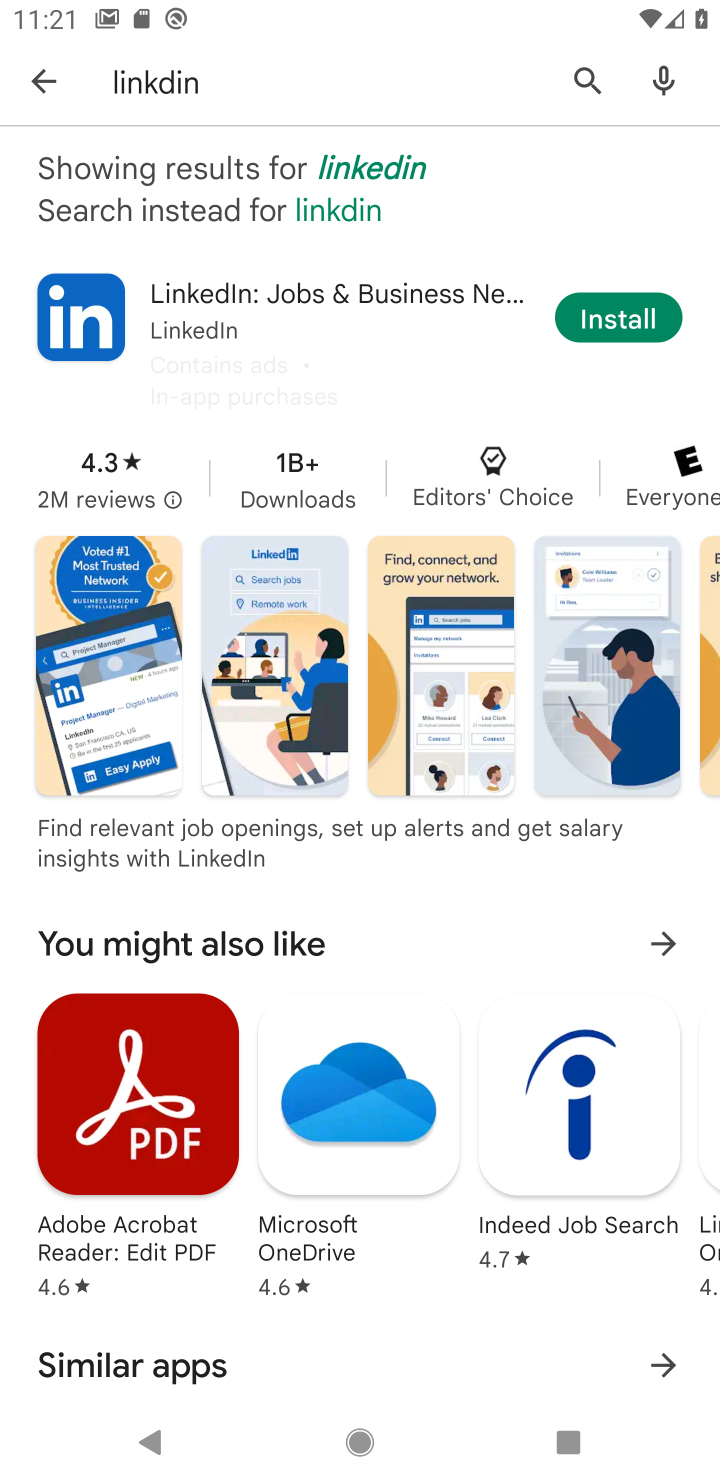
Step 31: click (56, 83)
Your task to perform on an android device: open app "WhatsApp Messenger" Image 32: 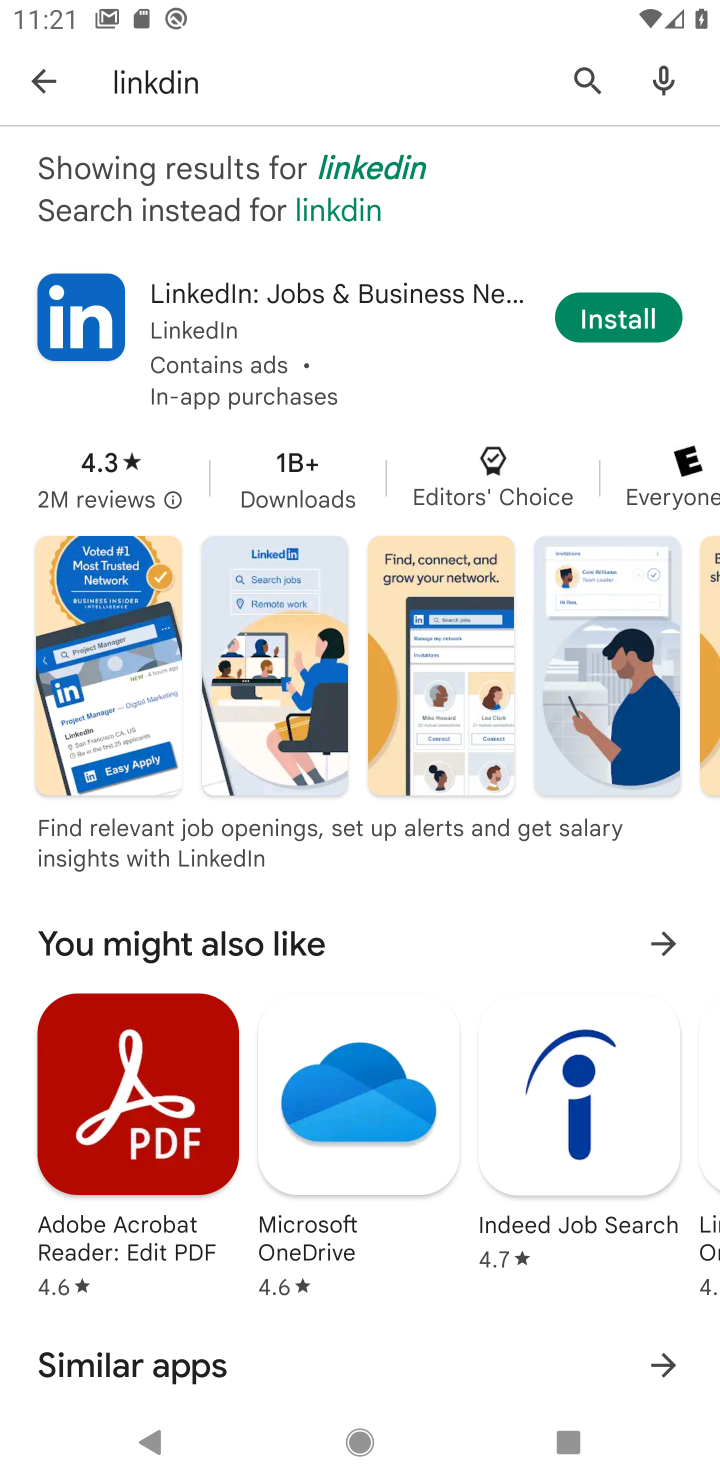
Step 32: click (27, 72)
Your task to perform on an android device: open app "WhatsApp Messenger" Image 33: 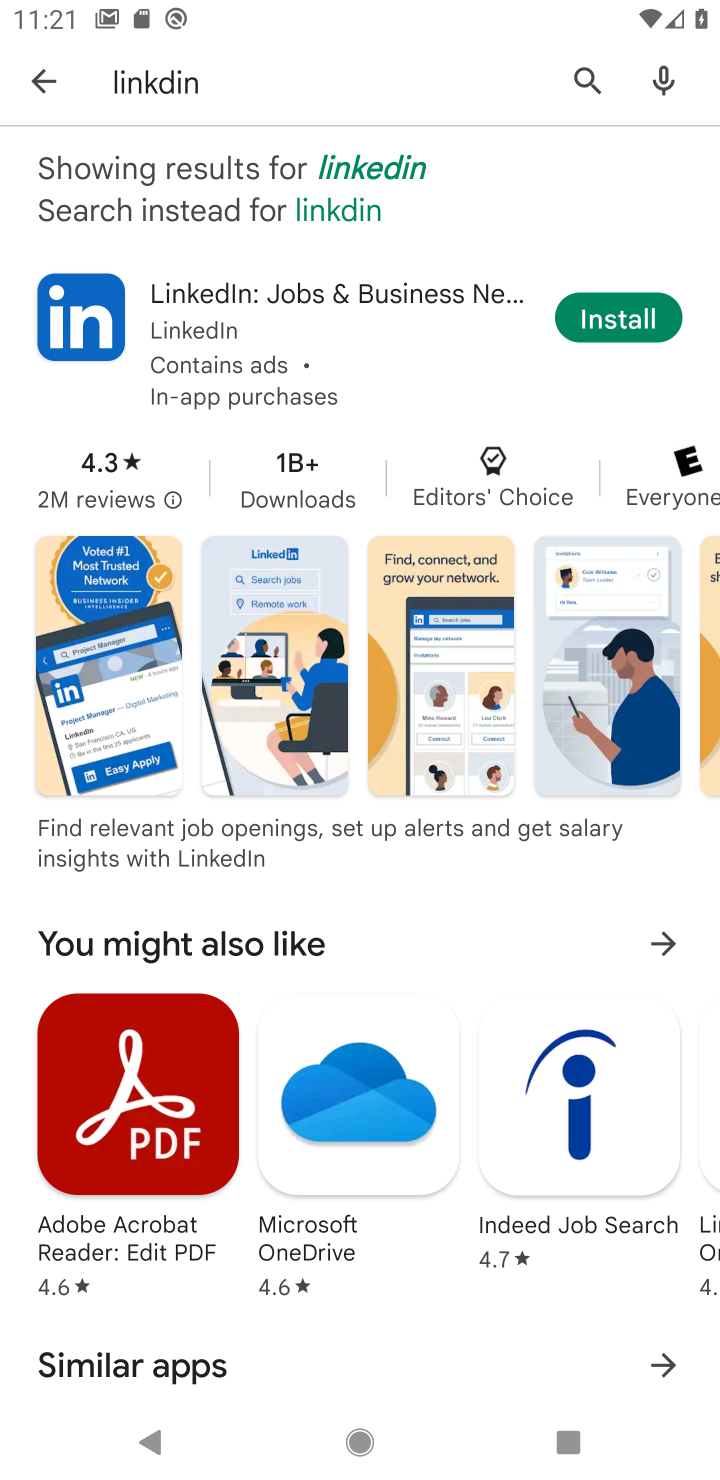
Step 33: click (593, 75)
Your task to perform on an android device: open app "WhatsApp Messenger" Image 34: 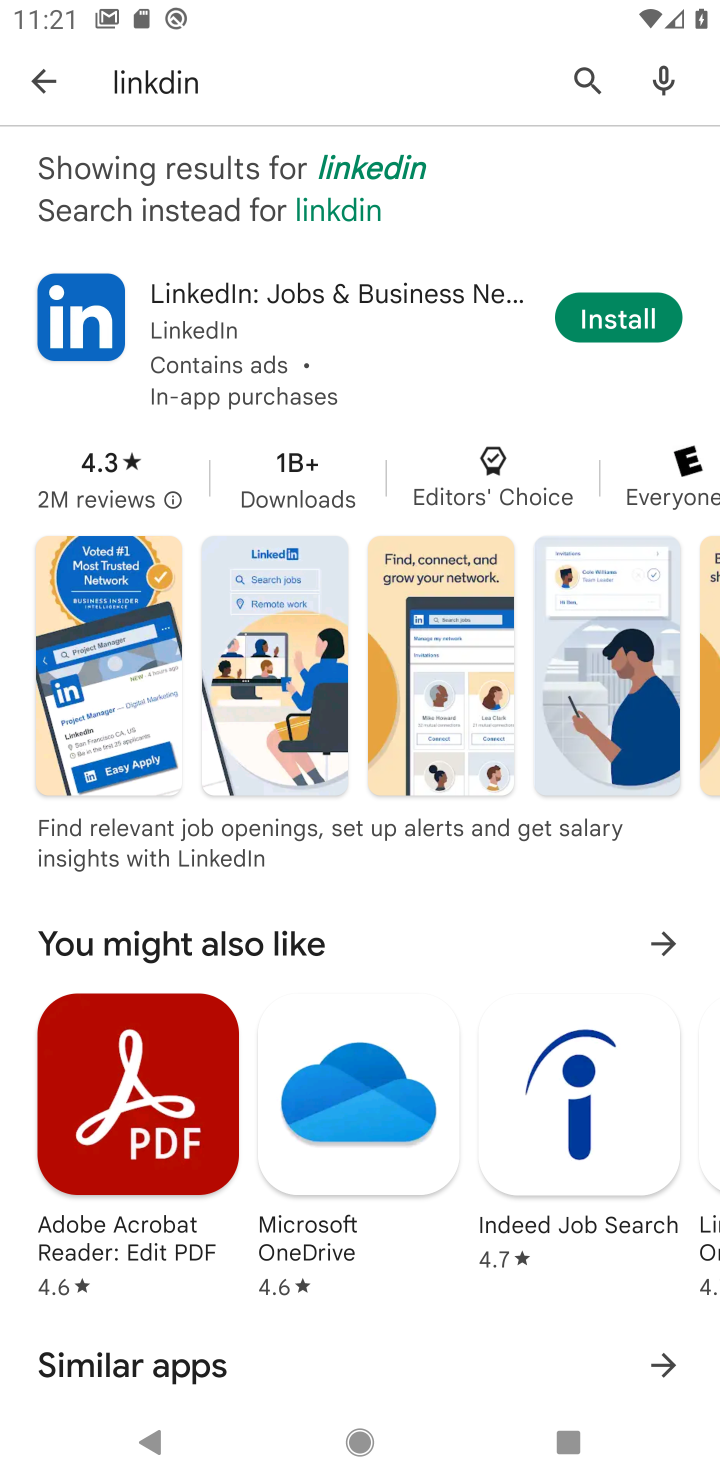
Step 34: click (593, 75)
Your task to perform on an android device: open app "WhatsApp Messenger" Image 35: 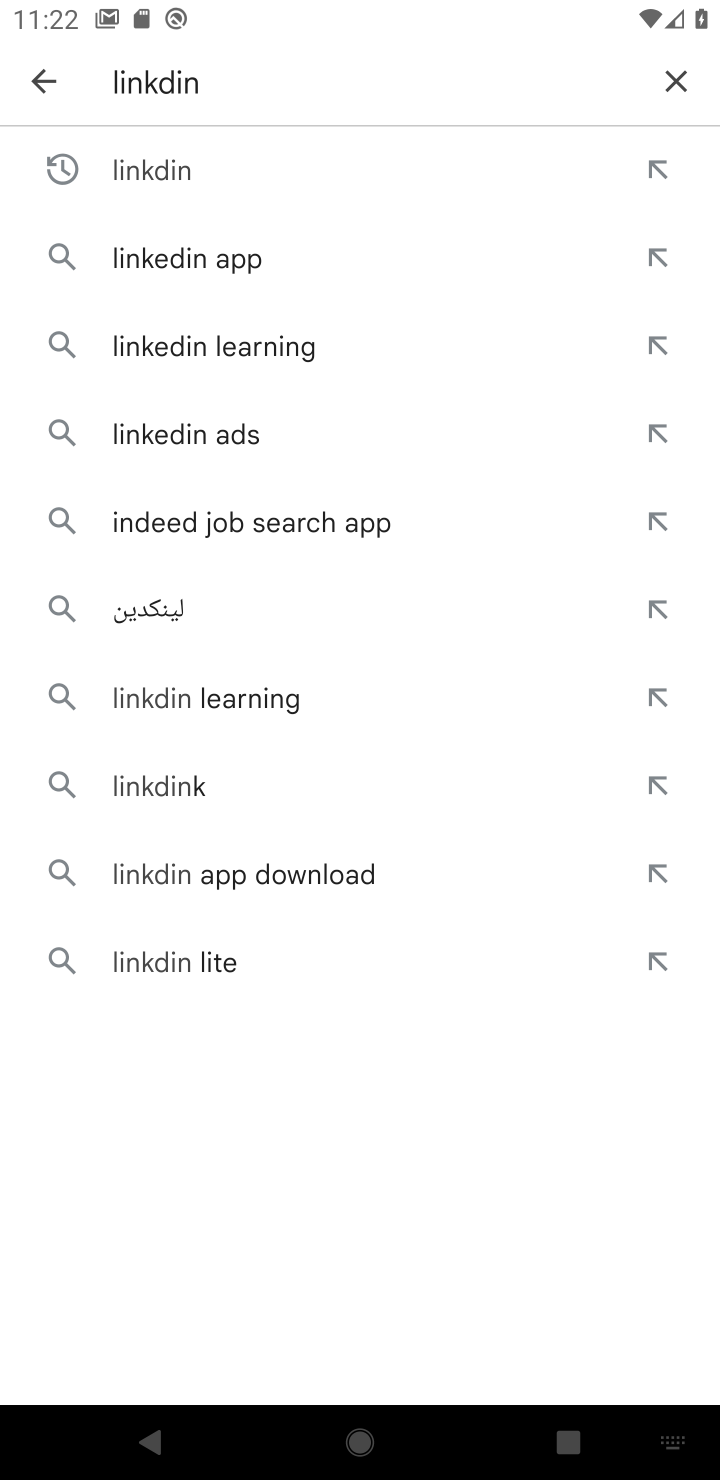
Step 35: click (690, 71)
Your task to perform on an android device: open app "WhatsApp Messenger" Image 36: 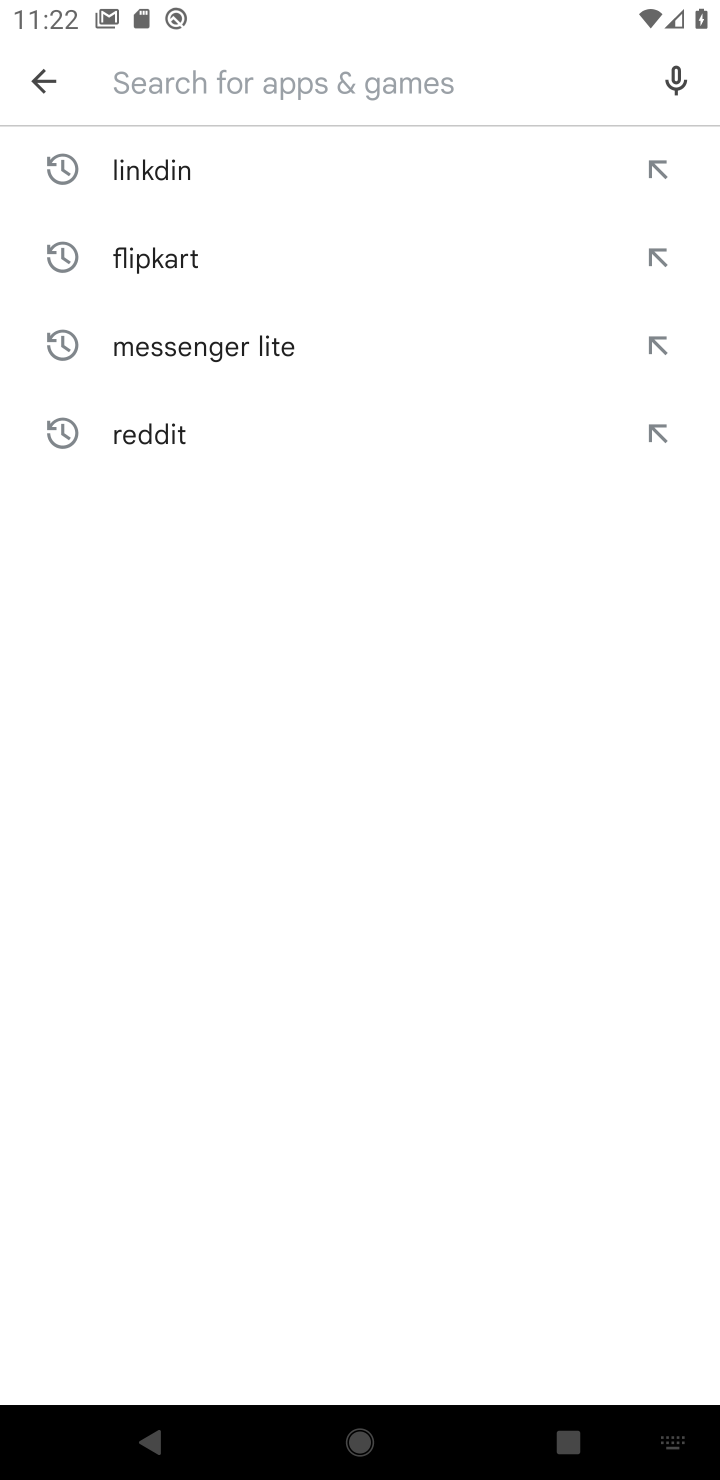
Step 36: type "whatsApp messenger"
Your task to perform on an android device: open app "WhatsApp Messenger" Image 37: 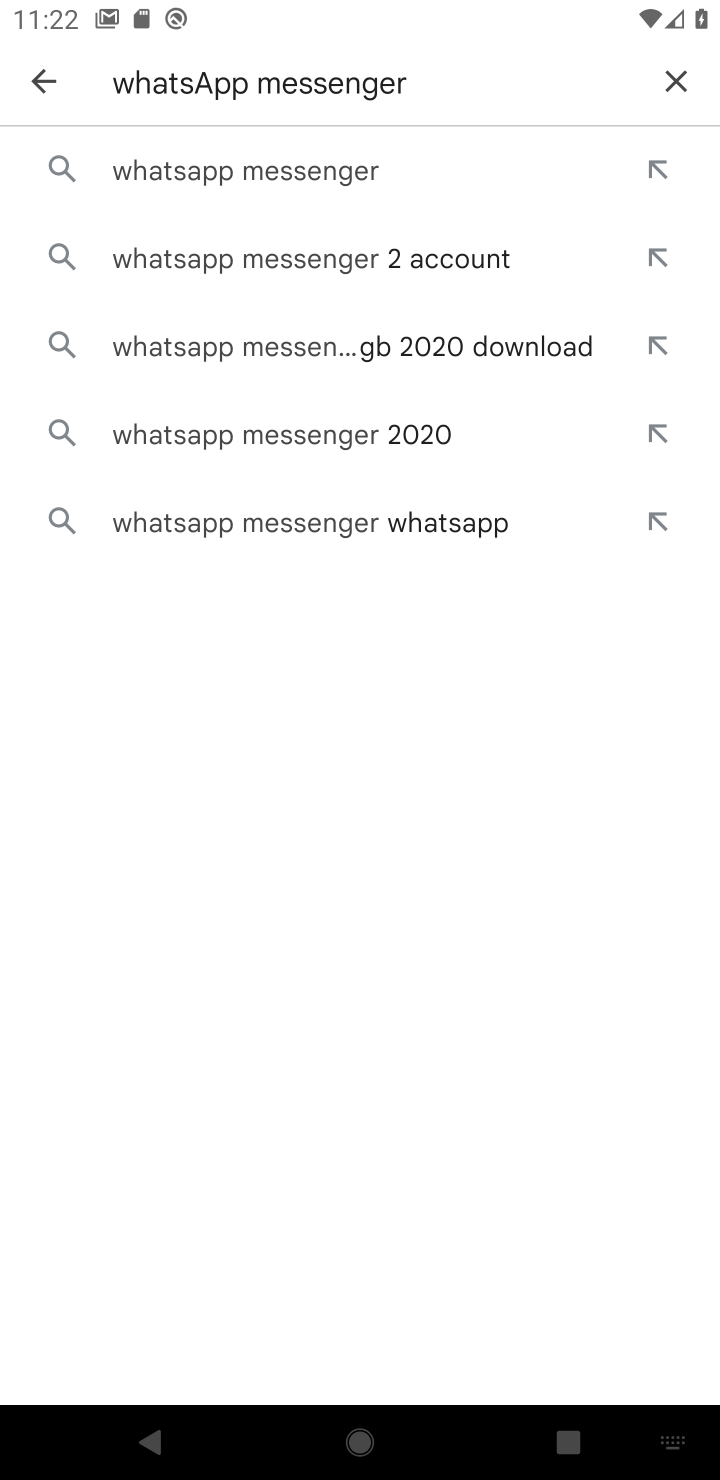
Step 37: click (173, 160)
Your task to perform on an android device: open app "WhatsApp Messenger" Image 38: 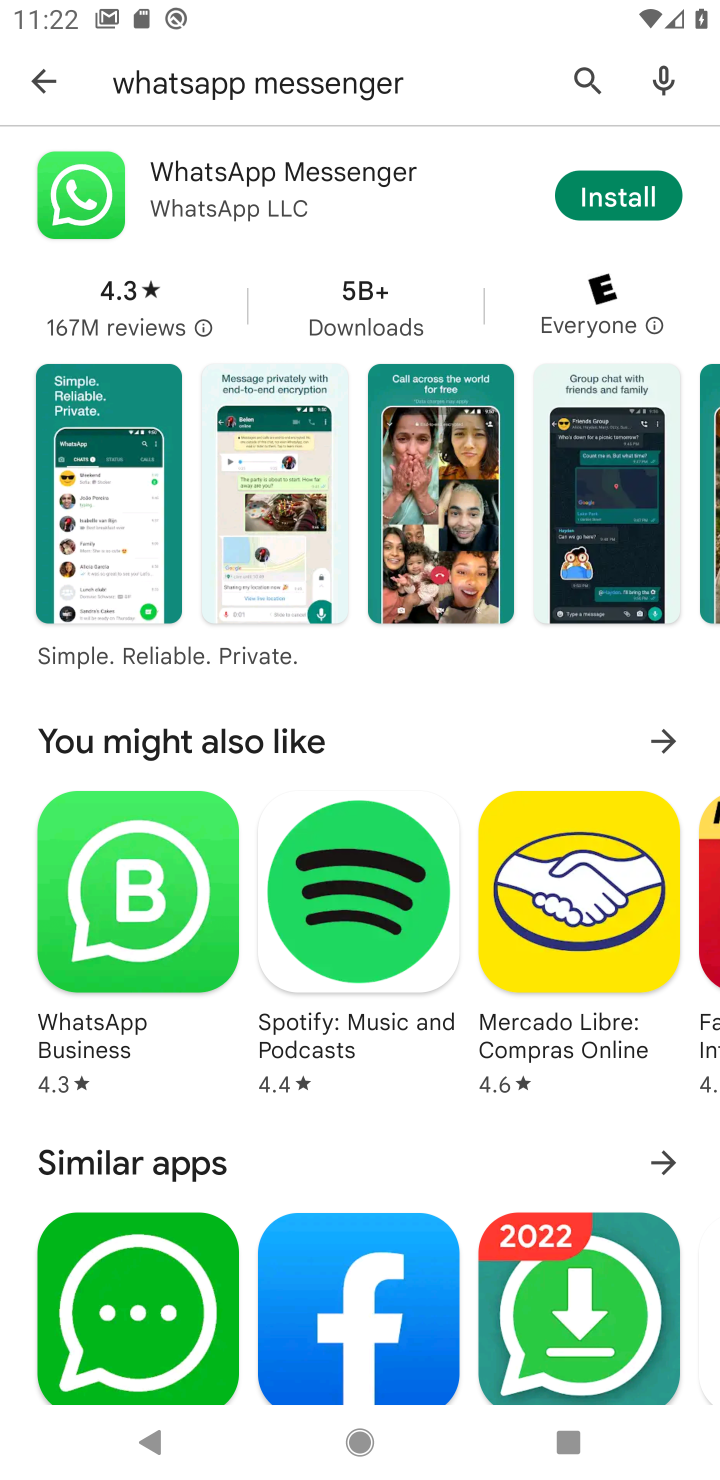
Step 38: click (642, 196)
Your task to perform on an android device: open app "WhatsApp Messenger" Image 39: 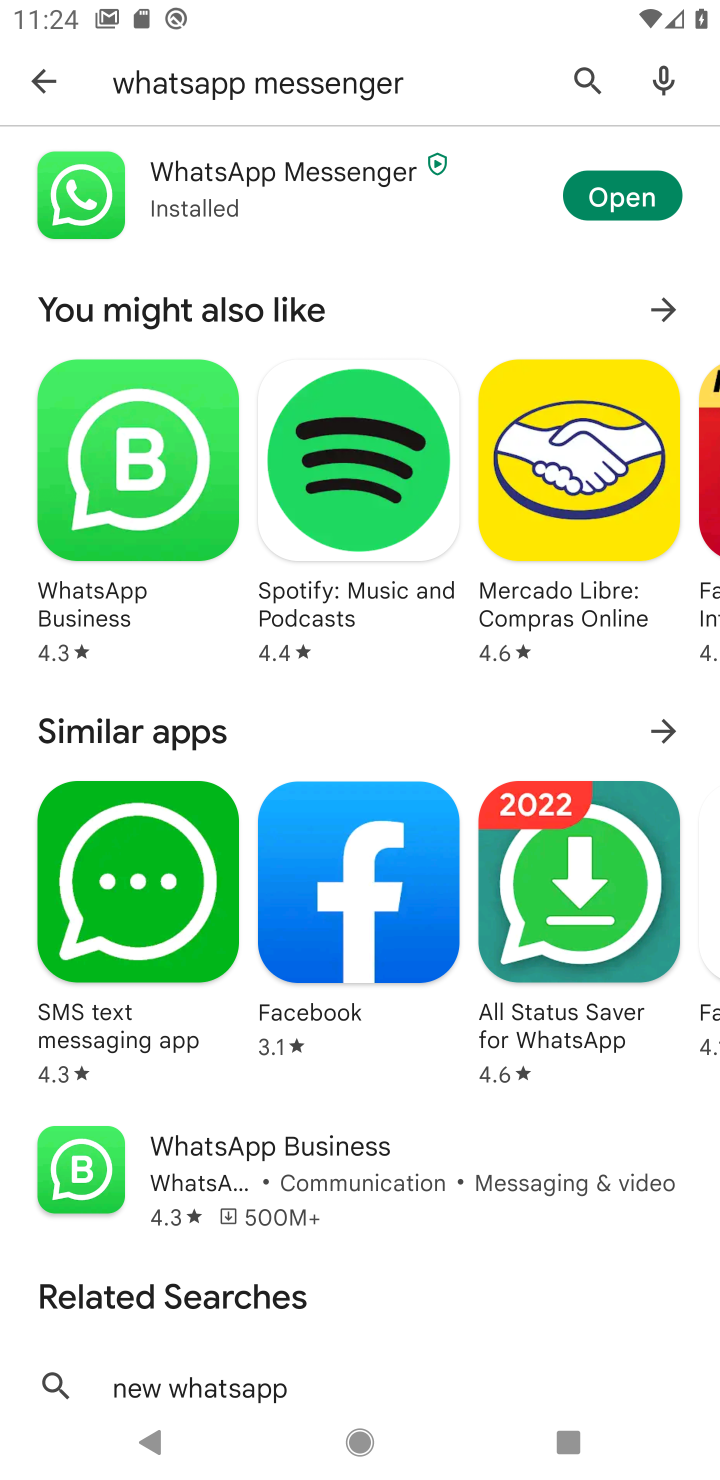
Step 39: click (602, 190)
Your task to perform on an android device: open app "WhatsApp Messenger" Image 40: 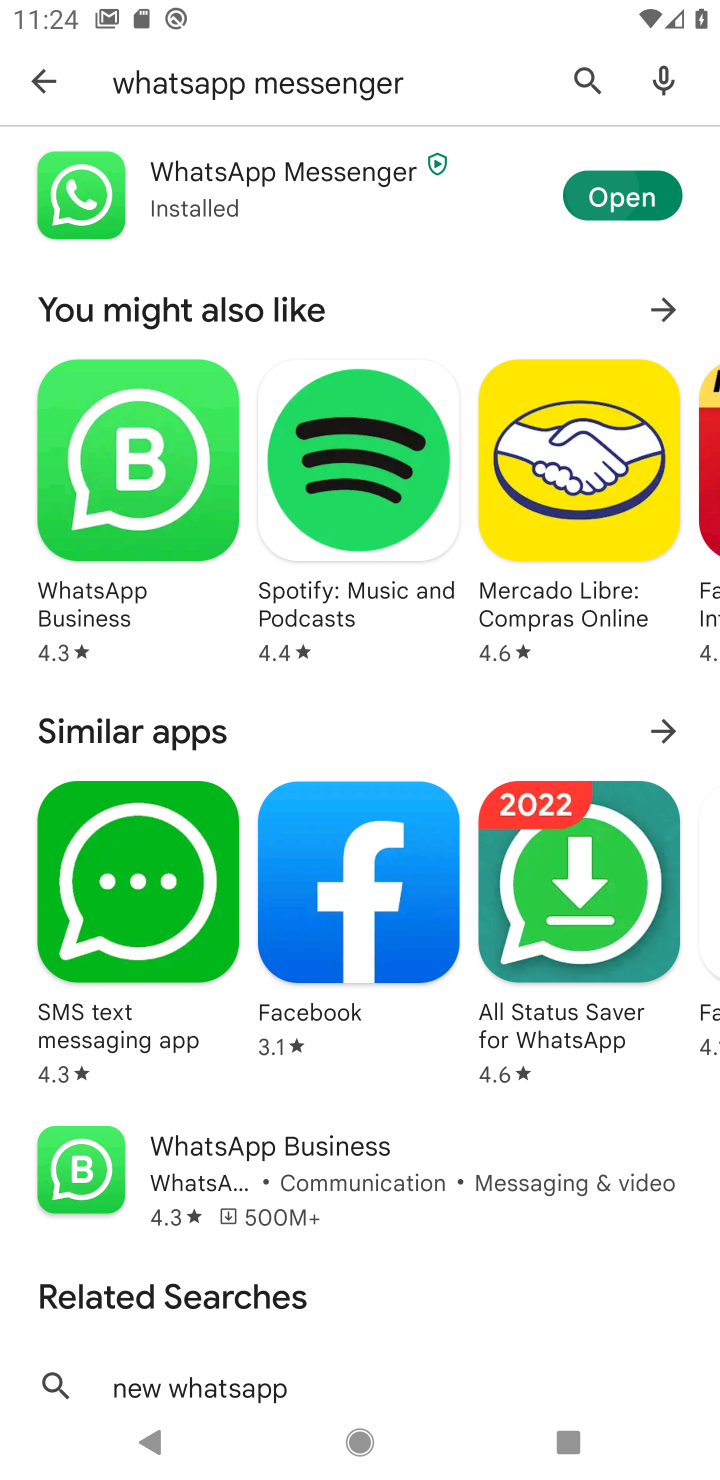
Step 40: click (602, 190)
Your task to perform on an android device: open app "WhatsApp Messenger" Image 41: 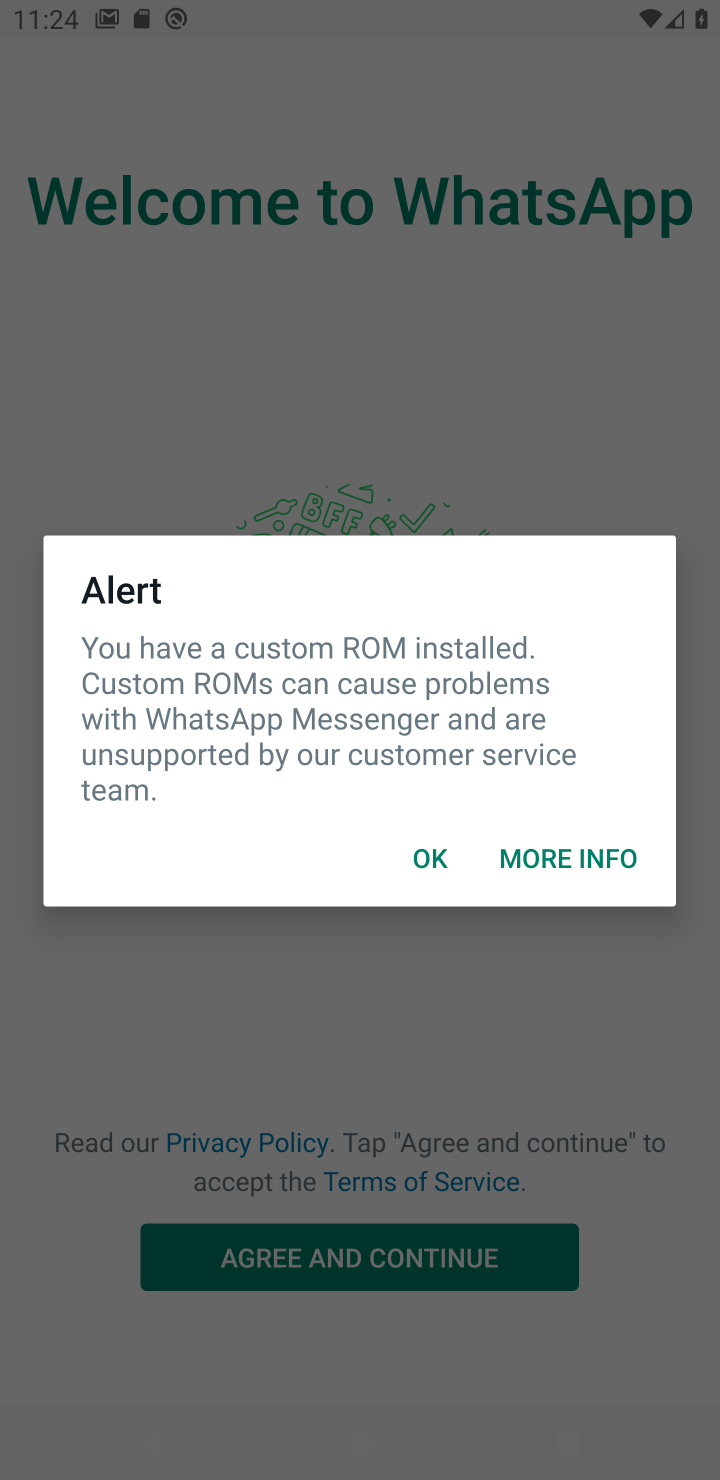
Step 41: task complete